Your task to perform on an android device: Empty the shopping cart on amazon.com. Add panasonic triple a to the cart on amazon.com Image 0: 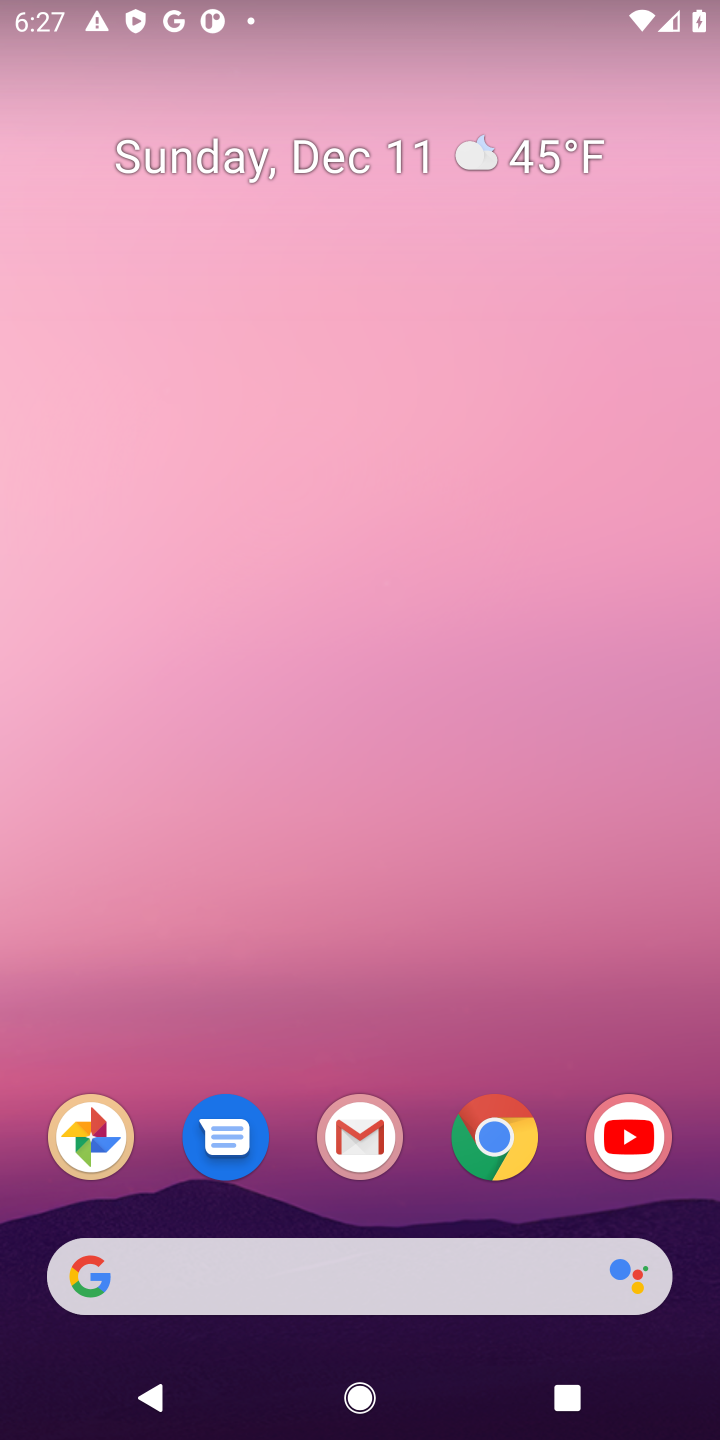
Step 0: click (507, 1138)
Your task to perform on an android device: Empty the shopping cart on amazon.com. Add panasonic triple a to the cart on amazon.com Image 1: 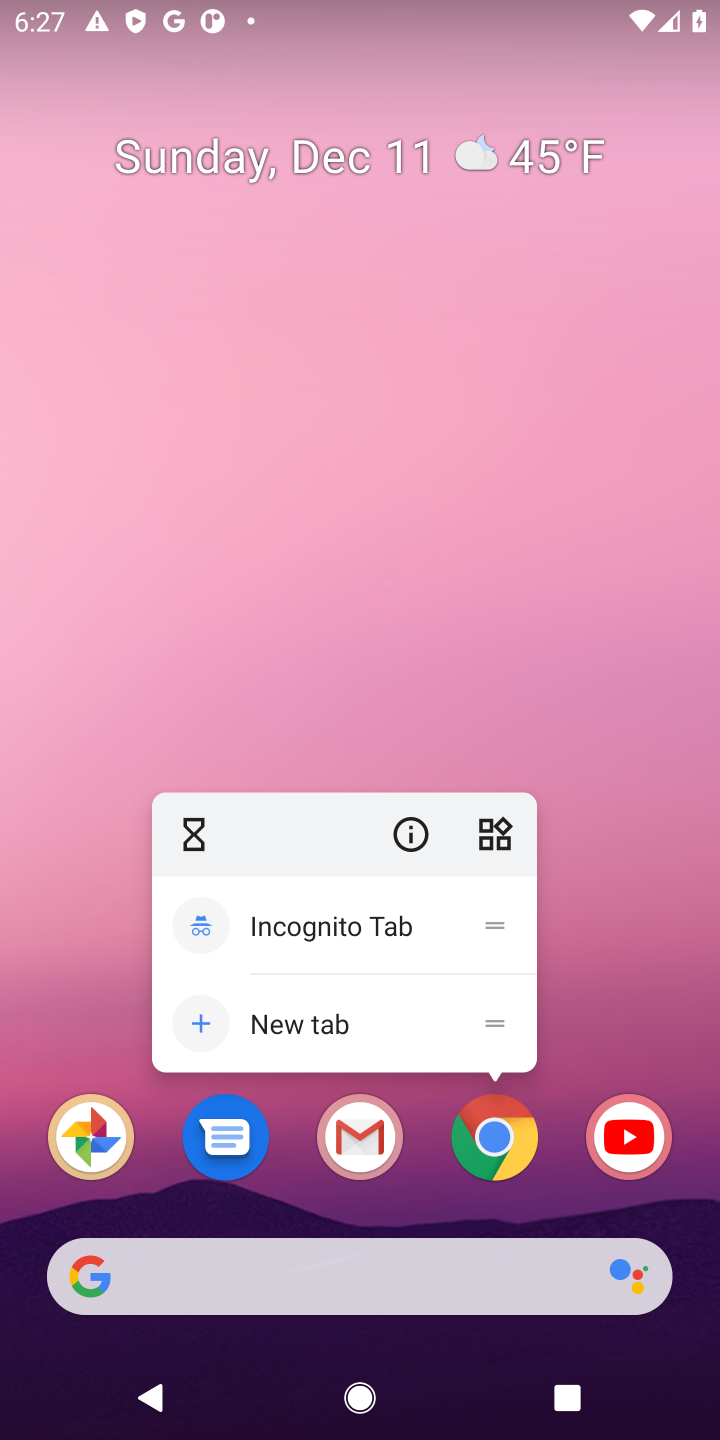
Step 1: click (507, 1138)
Your task to perform on an android device: Empty the shopping cart on amazon.com. Add panasonic triple a to the cart on amazon.com Image 2: 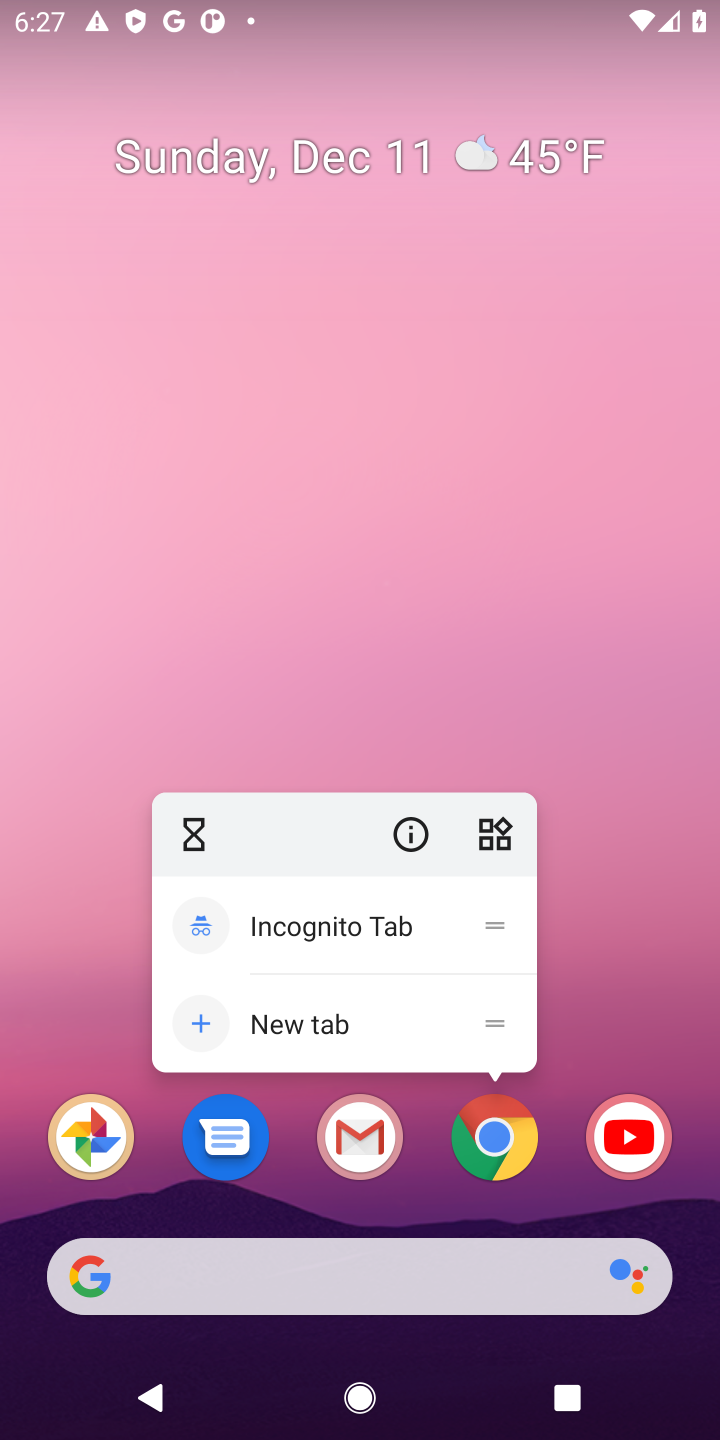
Step 2: click (489, 1140)
Your task to perform on an android device: Empty the shopping cart on amazon.com. Add panasonic triple a to the cart on amazon.com Image 3: 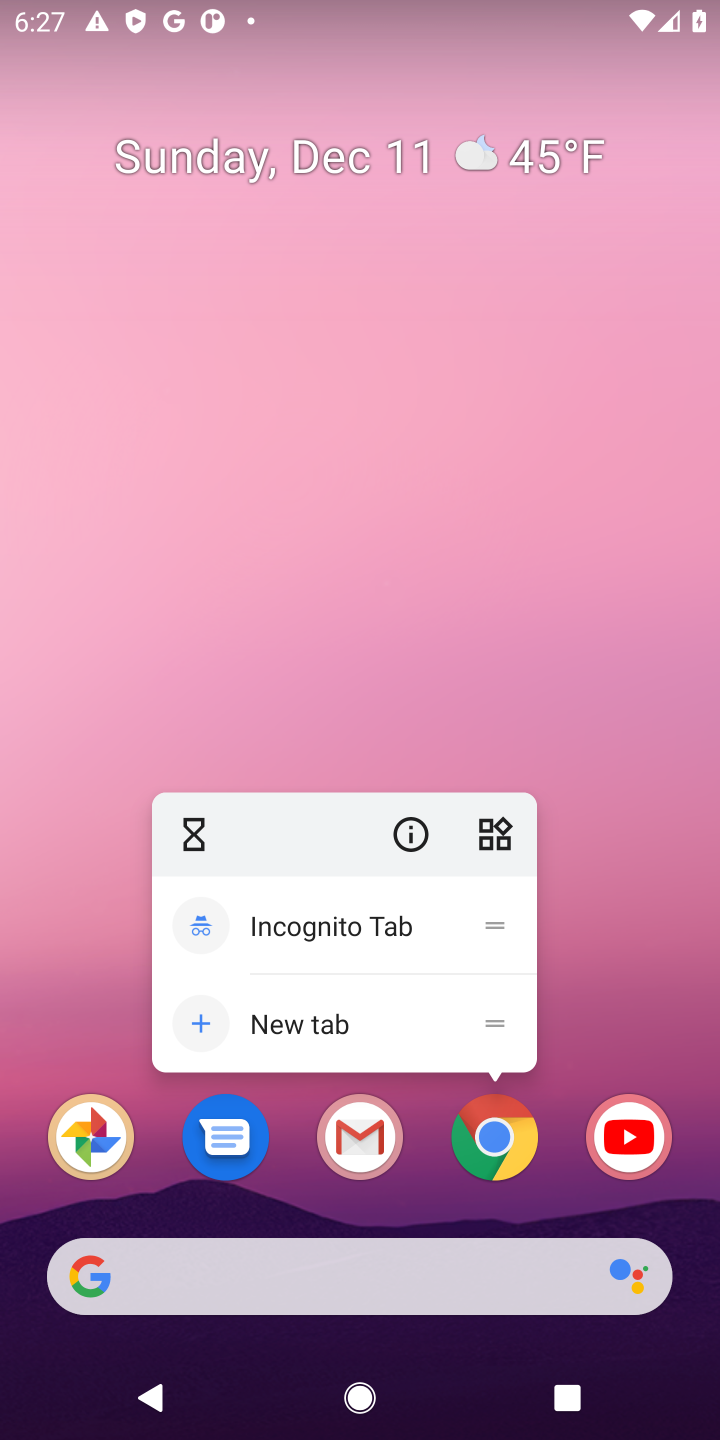
Step 3: click (489, 1140)
Your task to perform on an android device: Empty the shopping cart on amazon.com. Add panasonic triple a to the cart on amazon.com Image 4: 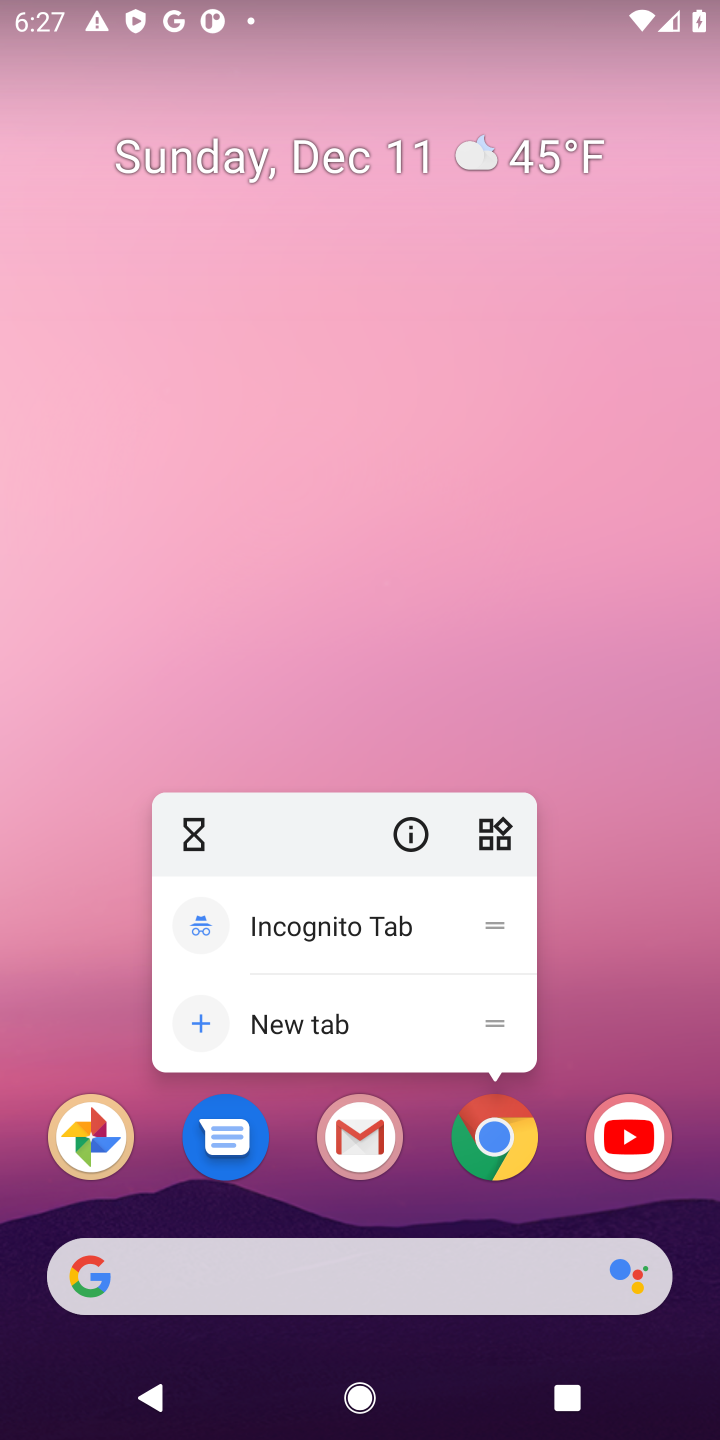
Step 4: click (489, 1140)
Your task to perform on an android device: Empty the shopping cart on amazon.com. Add panasonic triple a to the cart on amazon.com Image 5: 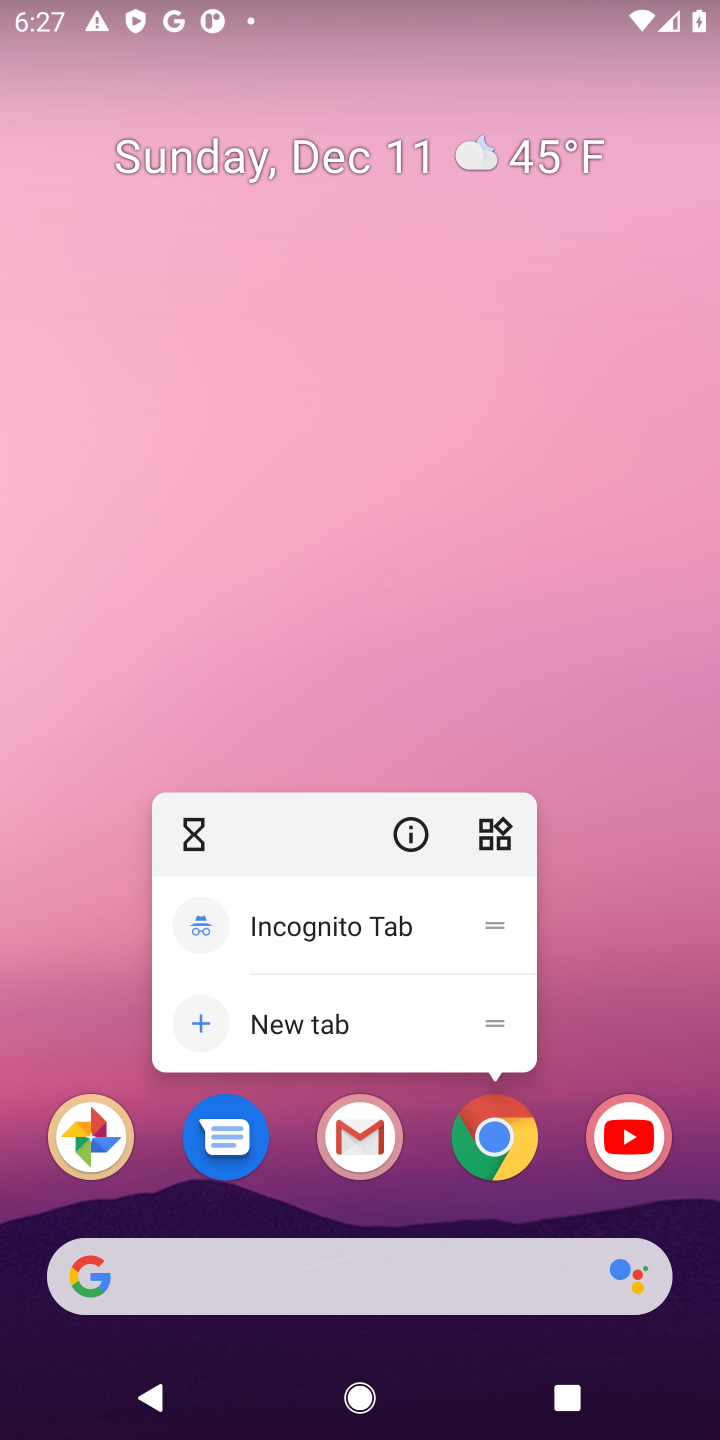
Step 5: click (489, 1140)
Your task to perform on an android device: Empty the shopping cart on amazon.com. Add panasonic triple a to the cart on amazon.com Image 6: 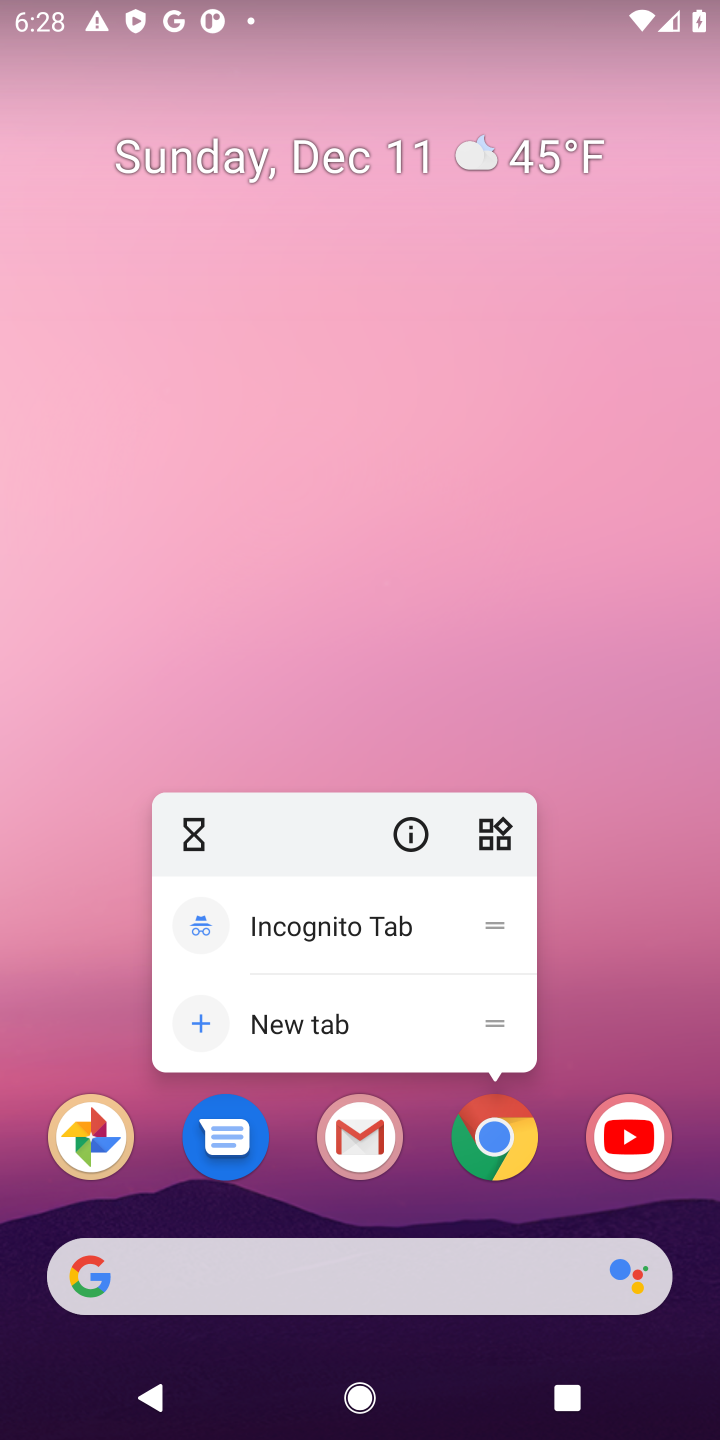
Step 6: click (489, 1155)
Your task to perform on an android device: Empty the shopping cart on amazon.com. Add panasonic triple a to the cart on amazon.com Image 7: 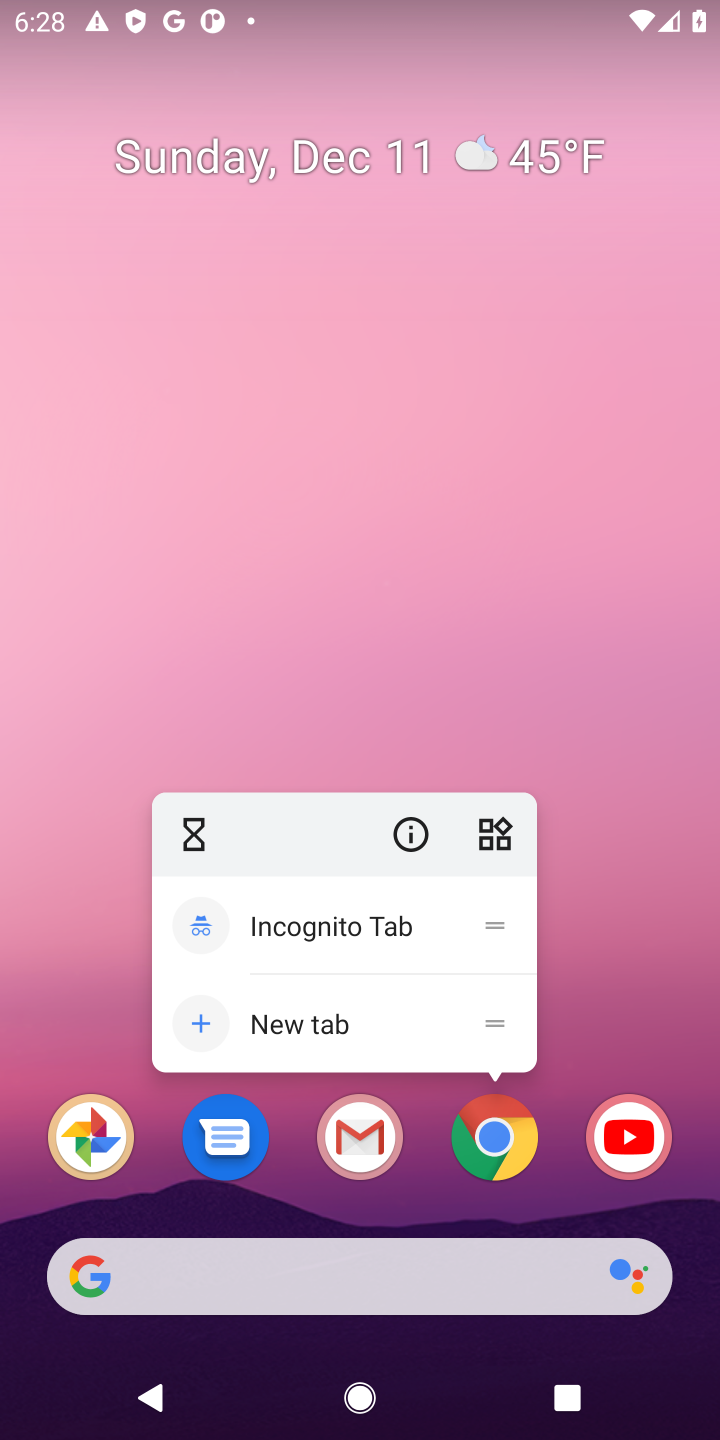
Step 7: click (489, 1155)
Your task to perform on an android device: Empty the shopping cart on amazon.com. Add panasonic triple a to the cart on amazon.com Image 8: 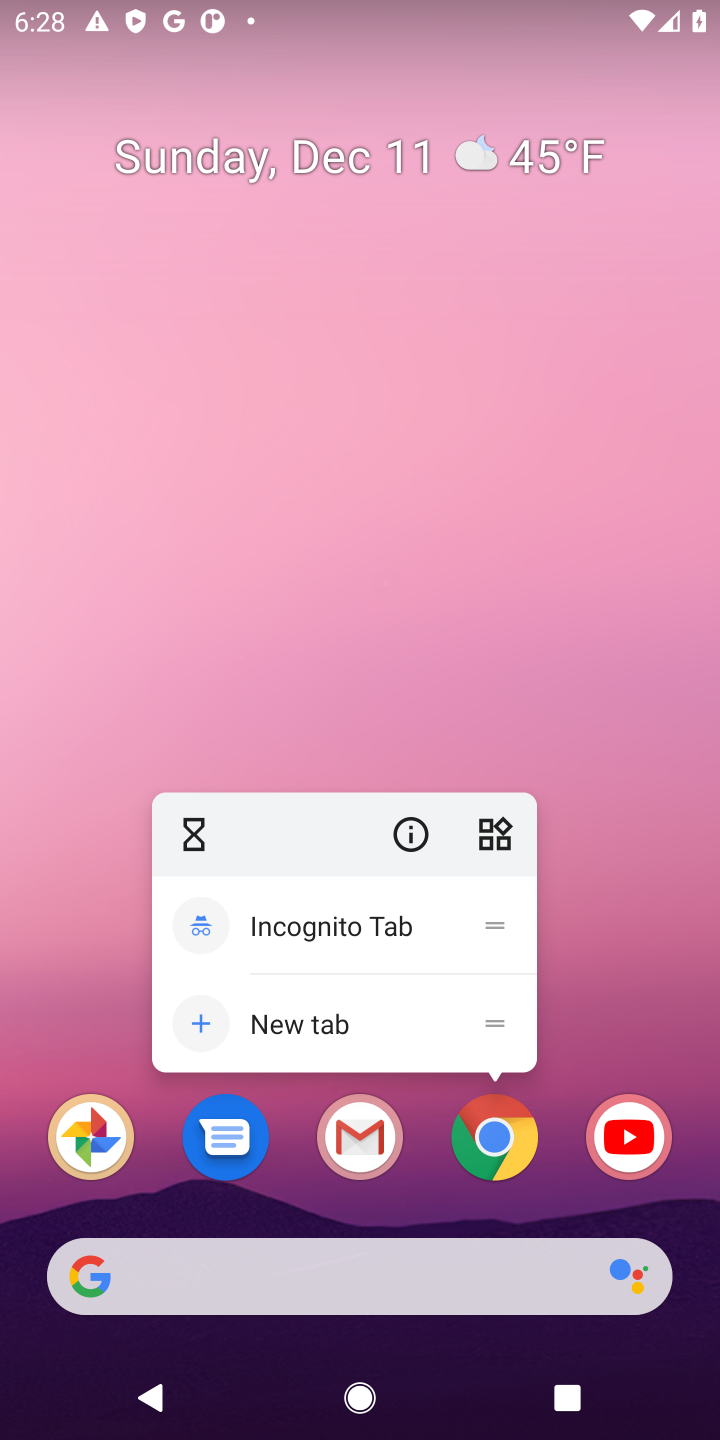
Step 8: click (489, 1155)
Your task to perform on an android device: Empty the shopping cart on amazon.com. Add panasonic triple a to the cart on amazon.com Image 9: 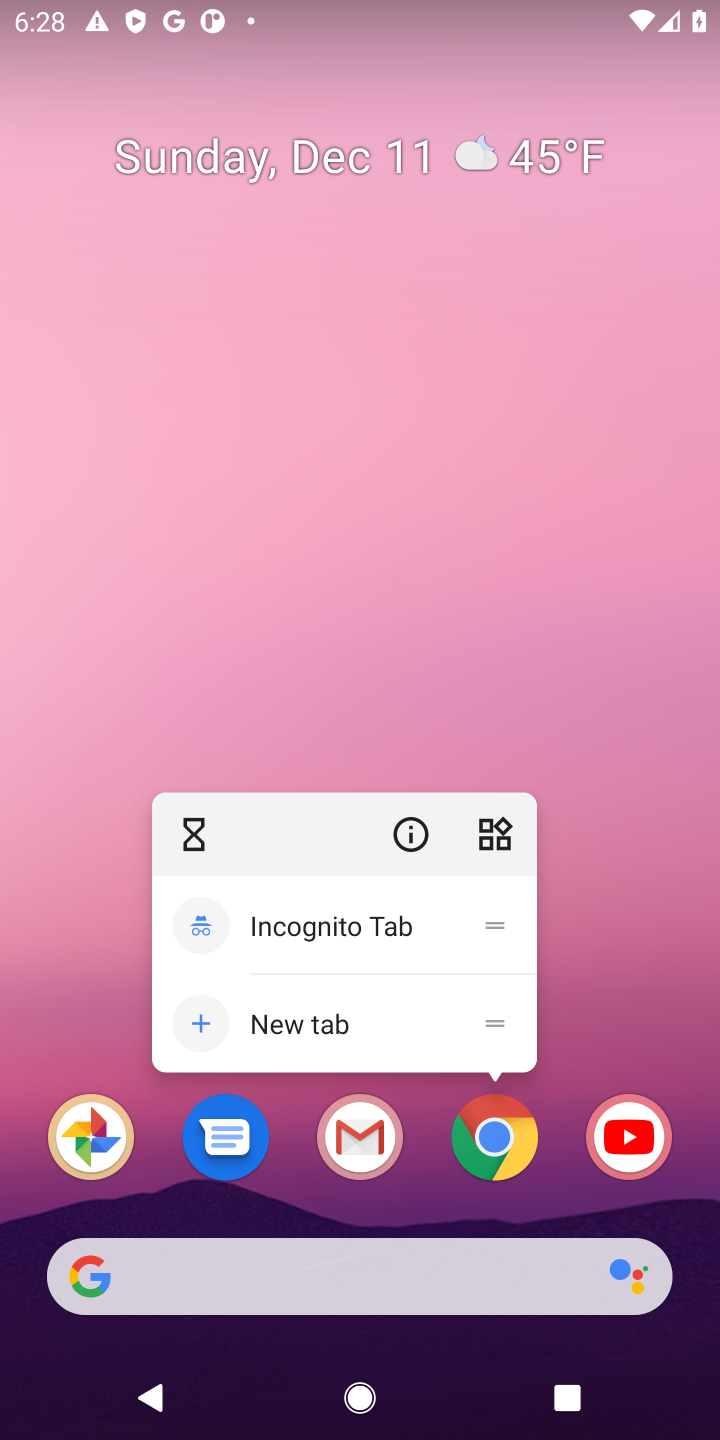
Step 9: click (500, 1134)
Your task to perform on an android device: Empty the shopping cart on amazon.com. Add panasonic triple a to the cart on amazon.com Image 10: 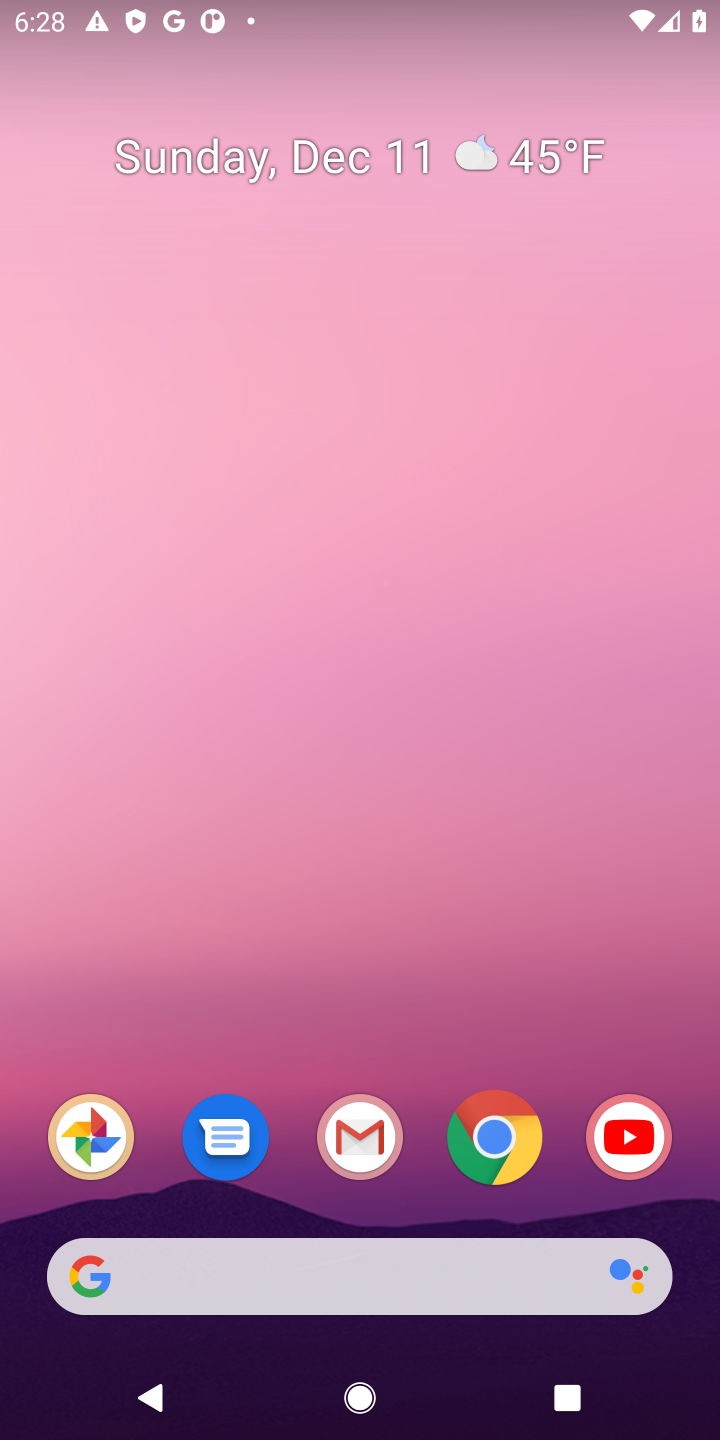
Step 10: click (500, 1134)
Your task to perform on an android device: Empty the shopping cart on amazon.com. Add panasonic triple a to the cart on amazon.com Image 11: 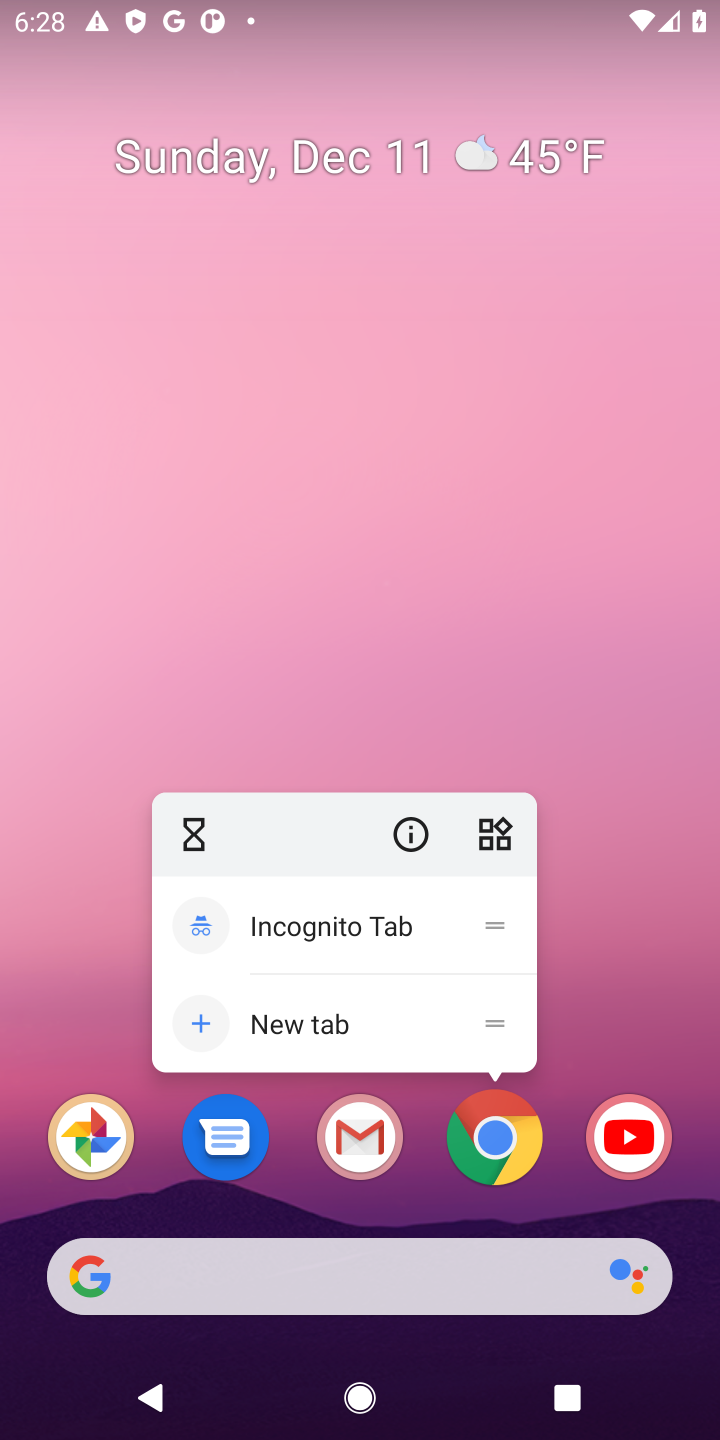
Step 11: click (500, 1134)
Your task to perform on an android device: Empty the shopping cart on amazon.com. Add panasonic triple a to the cart on amazon.com Image 12: 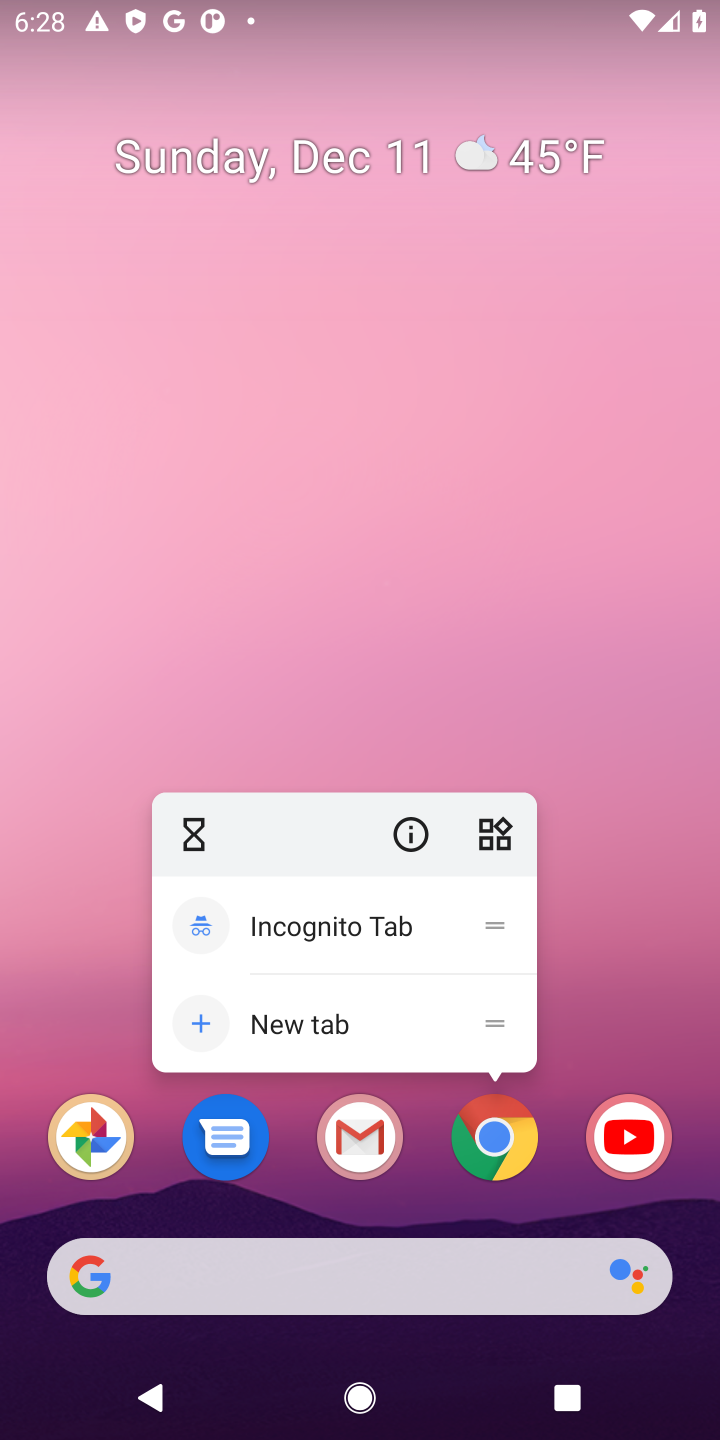
Step 12: click (500, 1134)
Your task to perform on an android device: Empty the shopping cart on amazon.com. Add panasonic triple a to the cart on amazon.com Image 13: 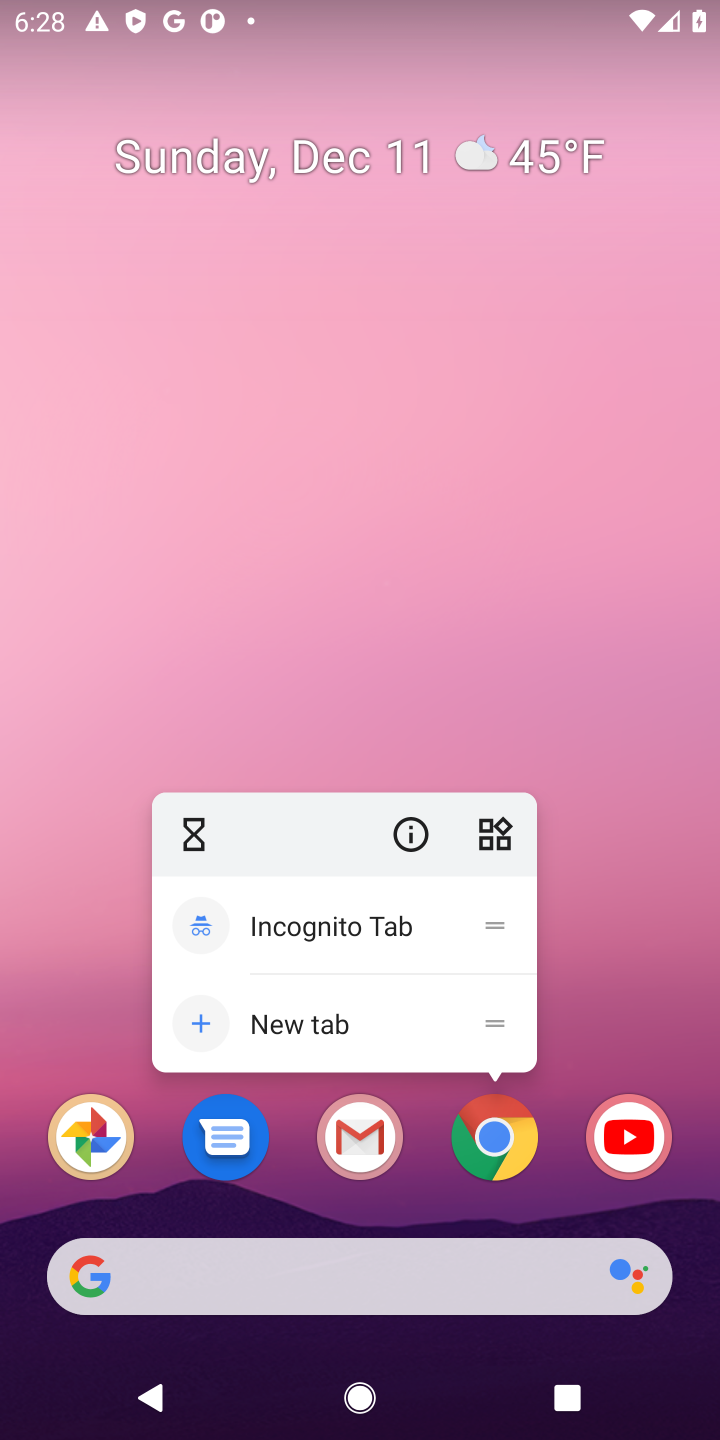
Step 13: click (500, 1134)
Your task to perform on an android device: Empty the shopping cart on amazon.com. Add panasonic triple a to the cart on amazon.com Image 14: 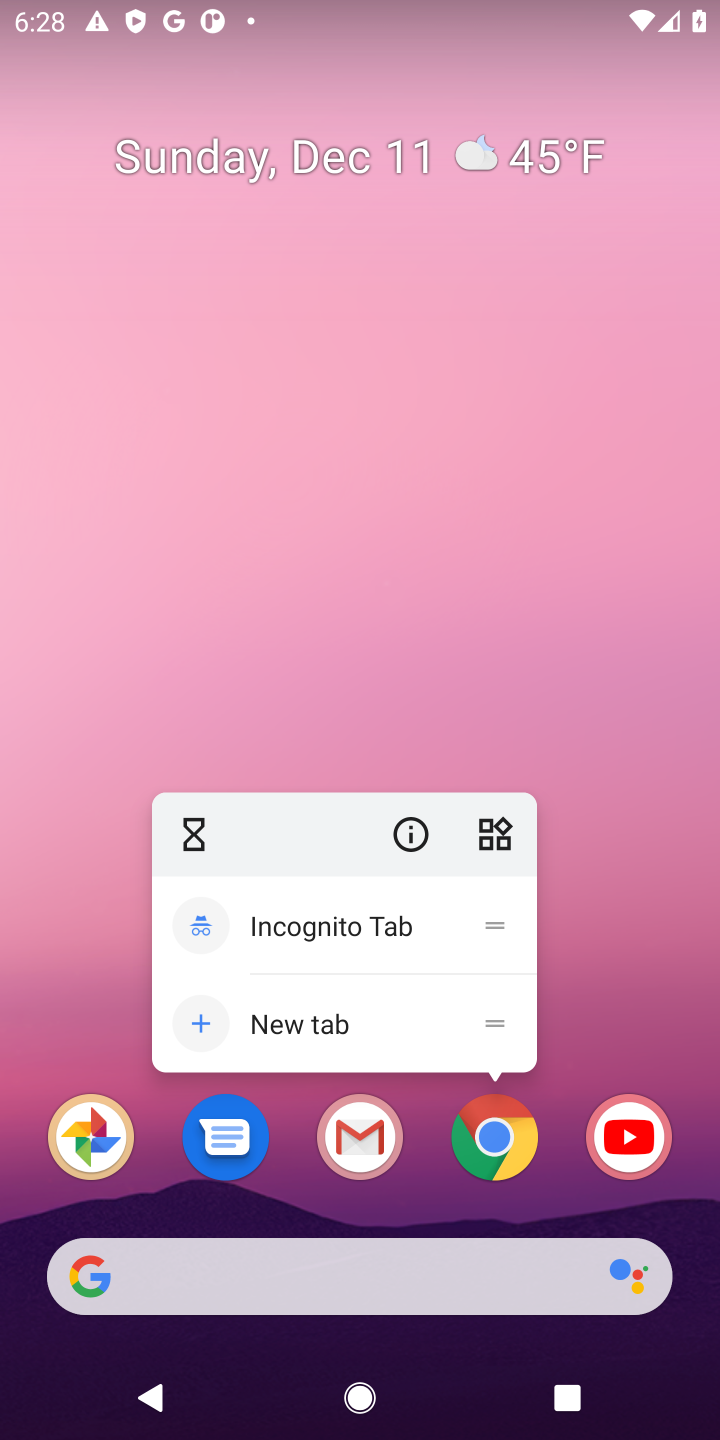
Step 14: click (492, 1145)
Your task to perform on an android device: Empty the shopping cart on amazon.com. Add panasonic triple a to the cart on amazon.com Image 15: 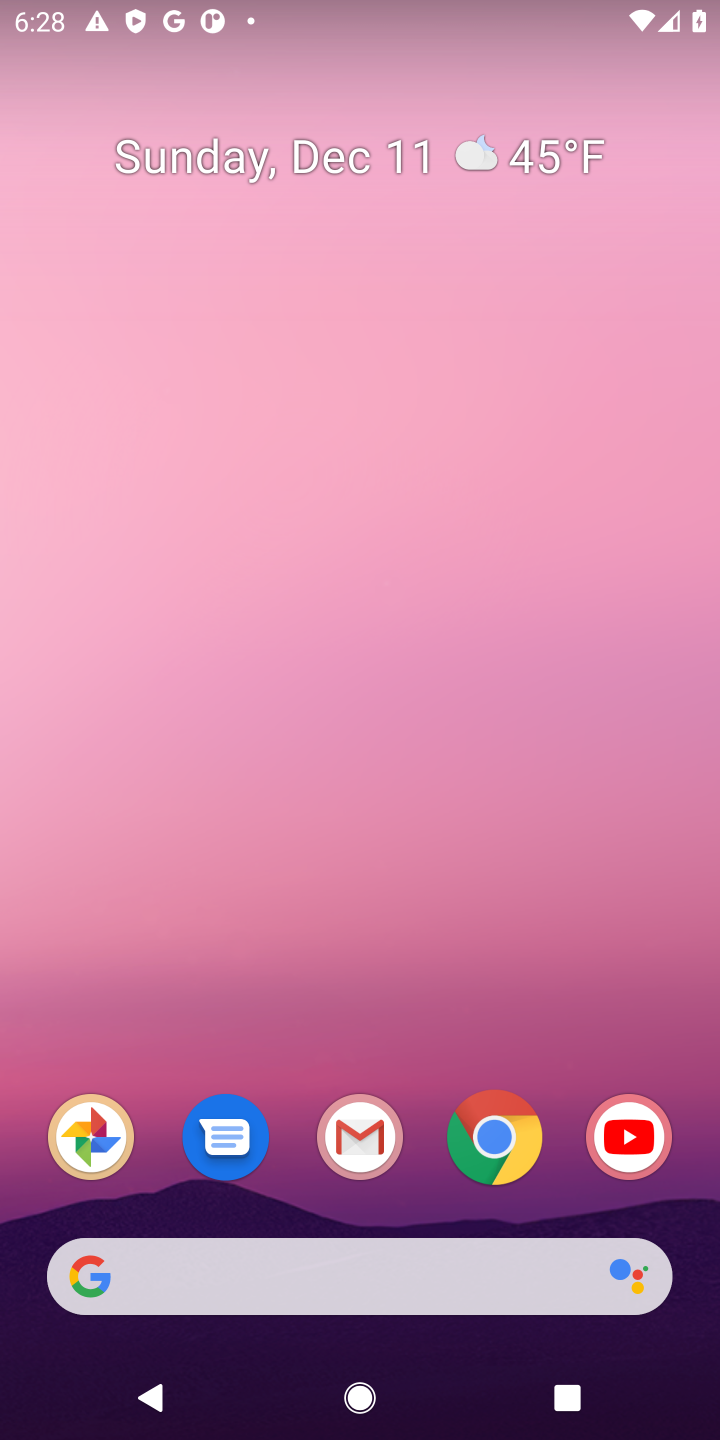
Step 15: click (492, 1145)
Your task to perform on an android device: Empty the shopping cart on amazon.com. Add panasonic triple a to the cart on amazon.com Image 16: 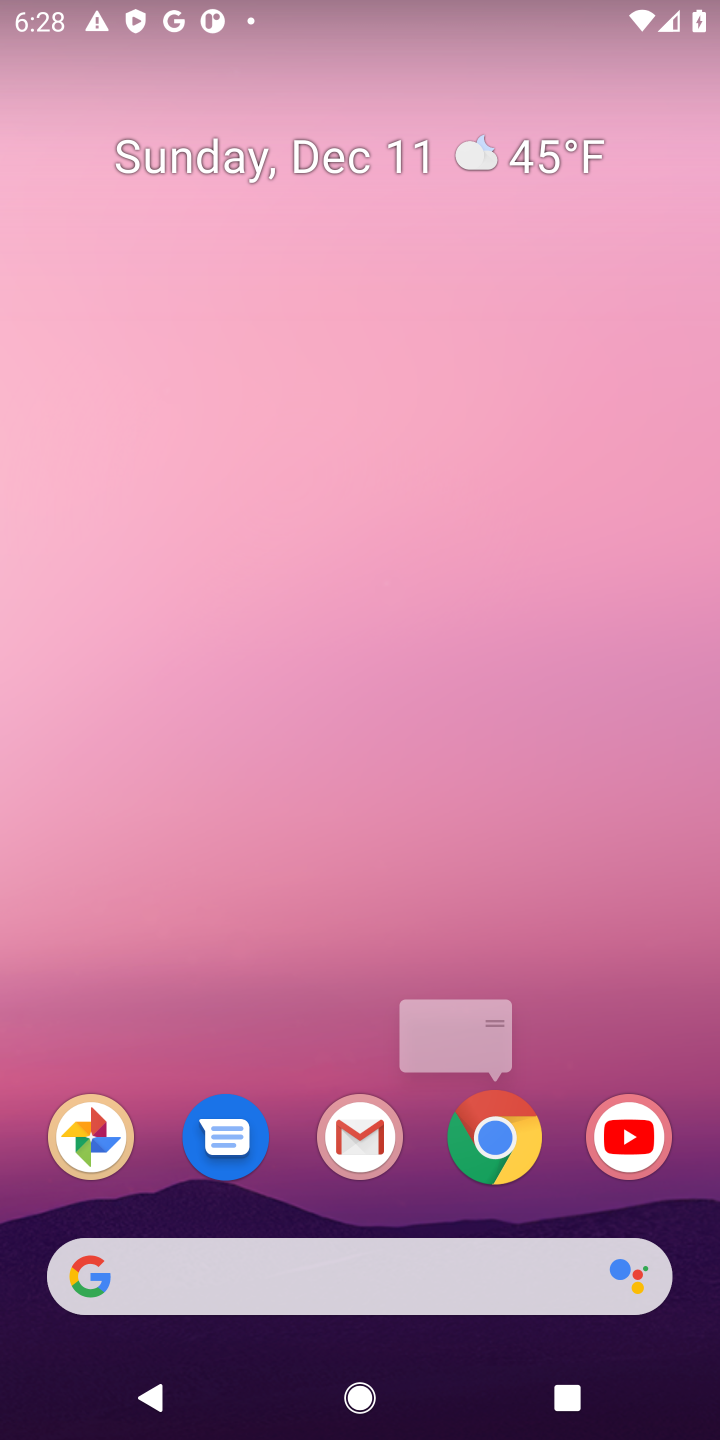
Step 16: click (492, 1145)
Your task to perform on an android device: Empty the shopping cart on amazon.com. Add panasonic triple a to the cart on amazon.com Image 17: 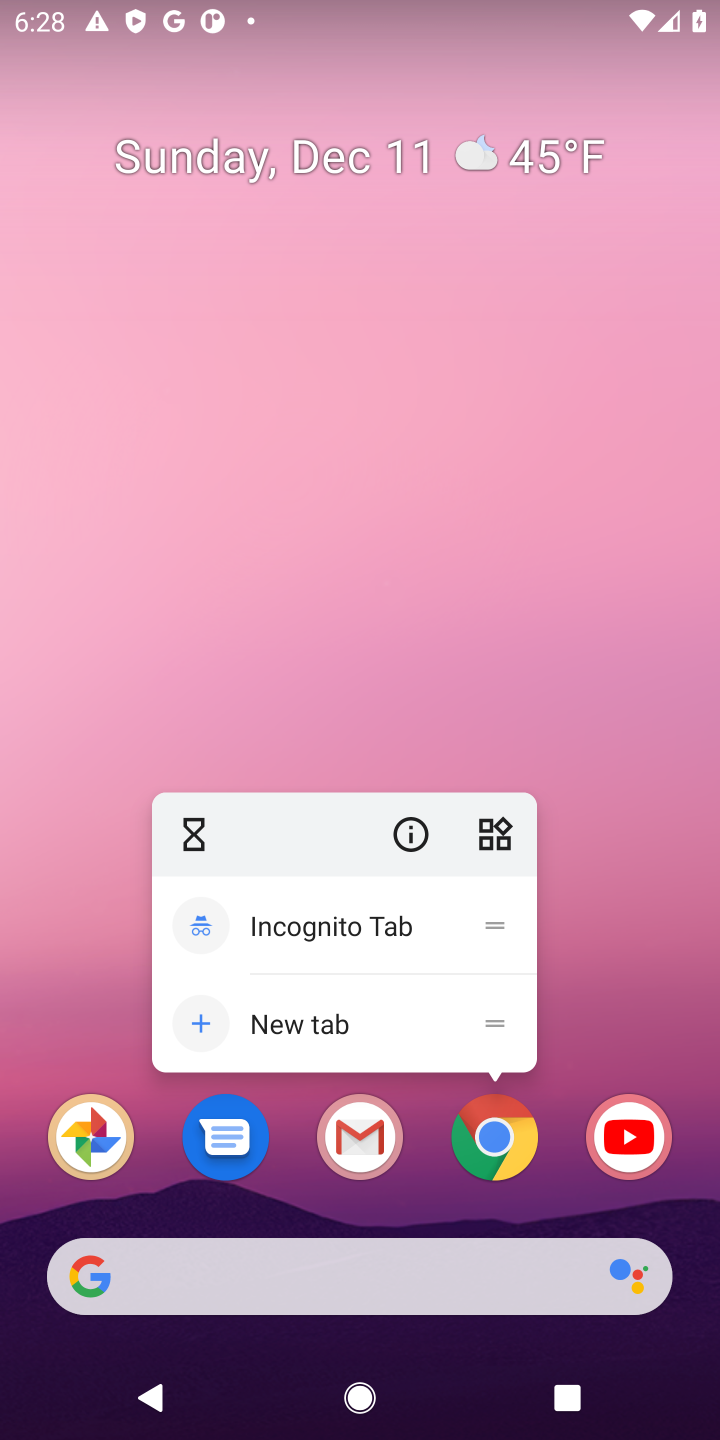
Step 17: click (492, 1145)
Your task to perform on an android device: Empty the shopping cart on amazon.com. Add panasonic triple a to the cart on amazon.com Image 18: 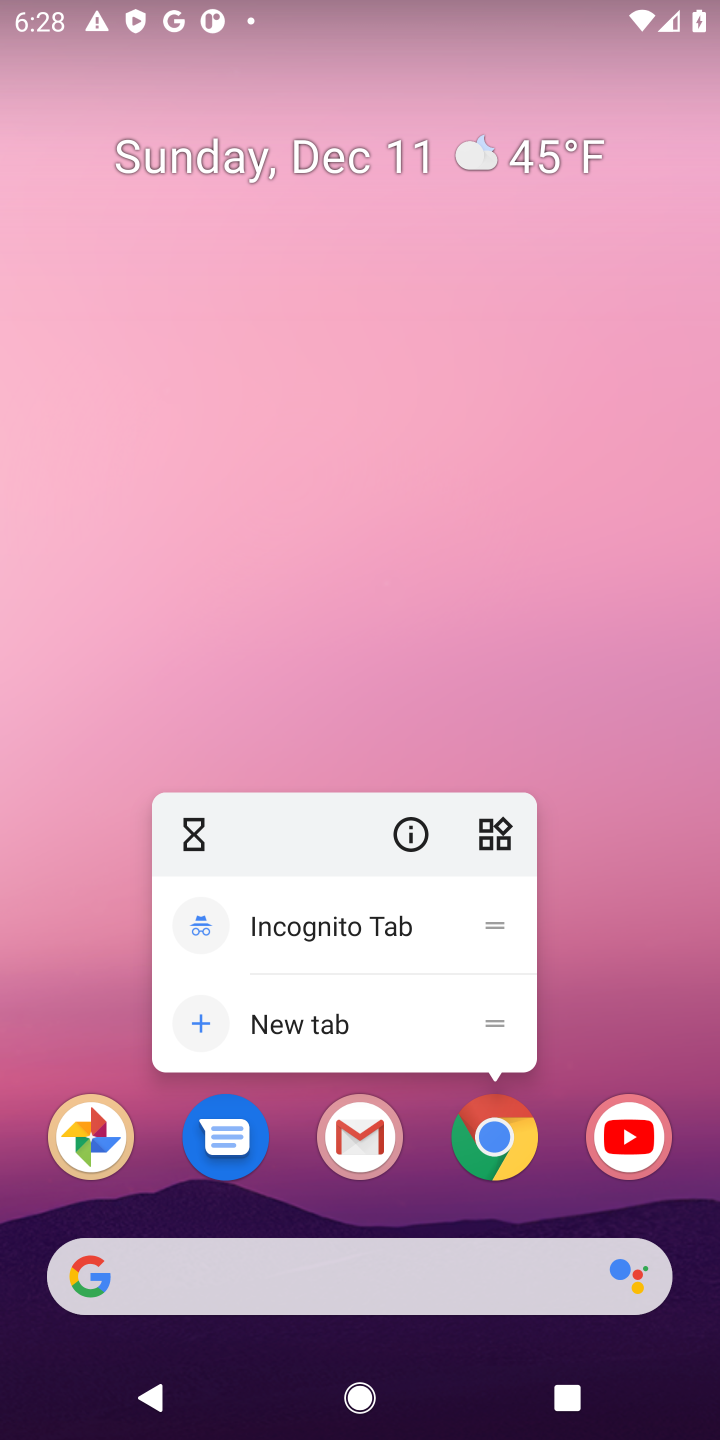
Step 18: click (501, 1163)
Your task to perform on an android device: Empty the shopping cart on amazon.com. Add panasonic triple a to the cart on amazon.com Image 19: 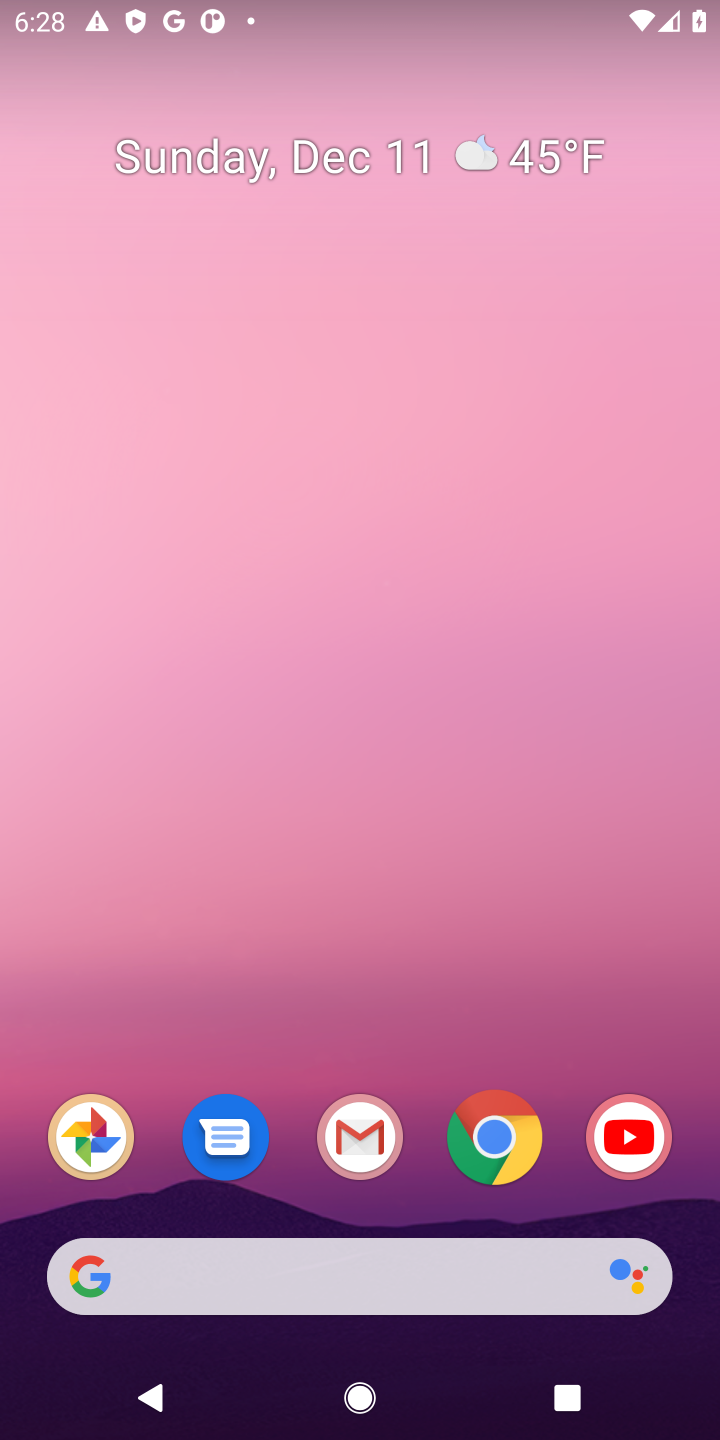
Step 19: click (501, 1163)
Your task to perform on an android device: Empty the shopping cart on amazon.com. Add panasonic triple a to the cart on amazon.com Image 20: 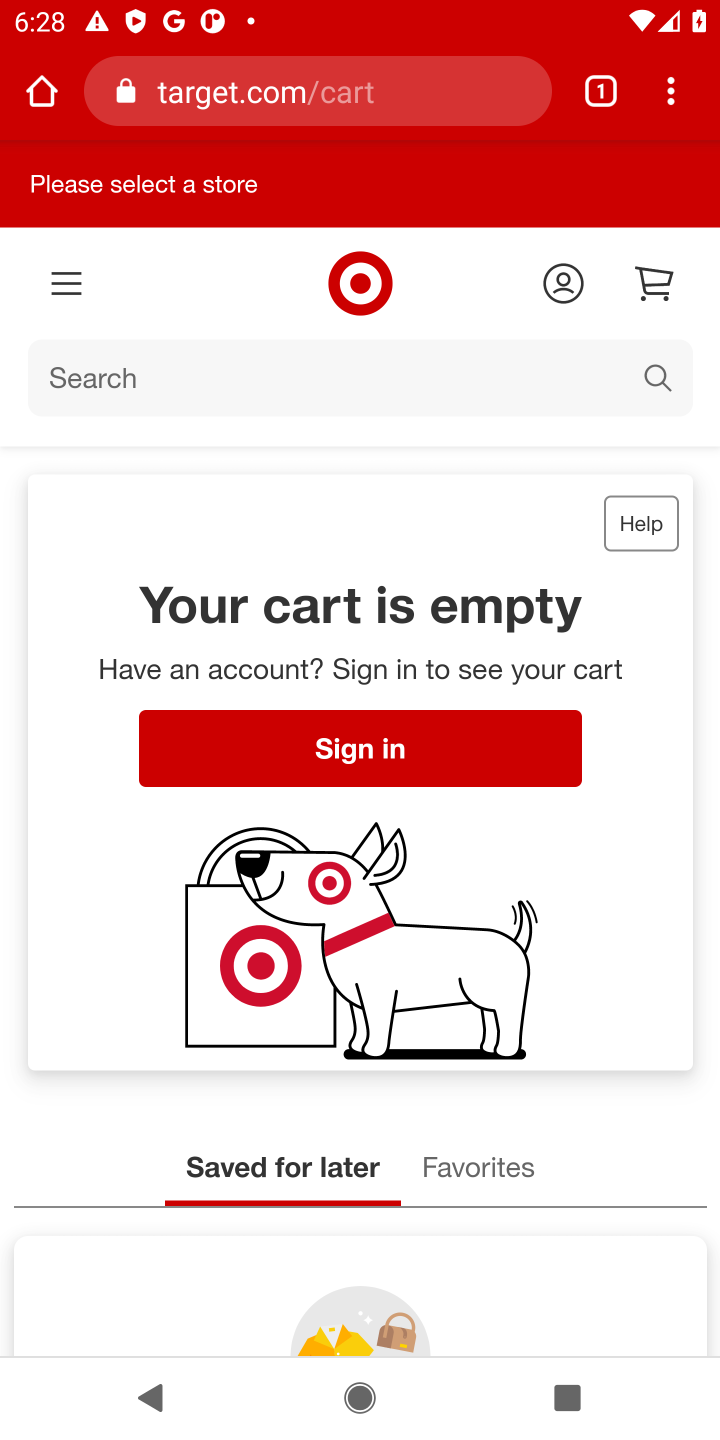
Step 20: click (416, 68)
Your task to perform on an android device: Empty the shopping cart on amazon.com. Add panasonic triple a to the cart on amazon.com Image 21: 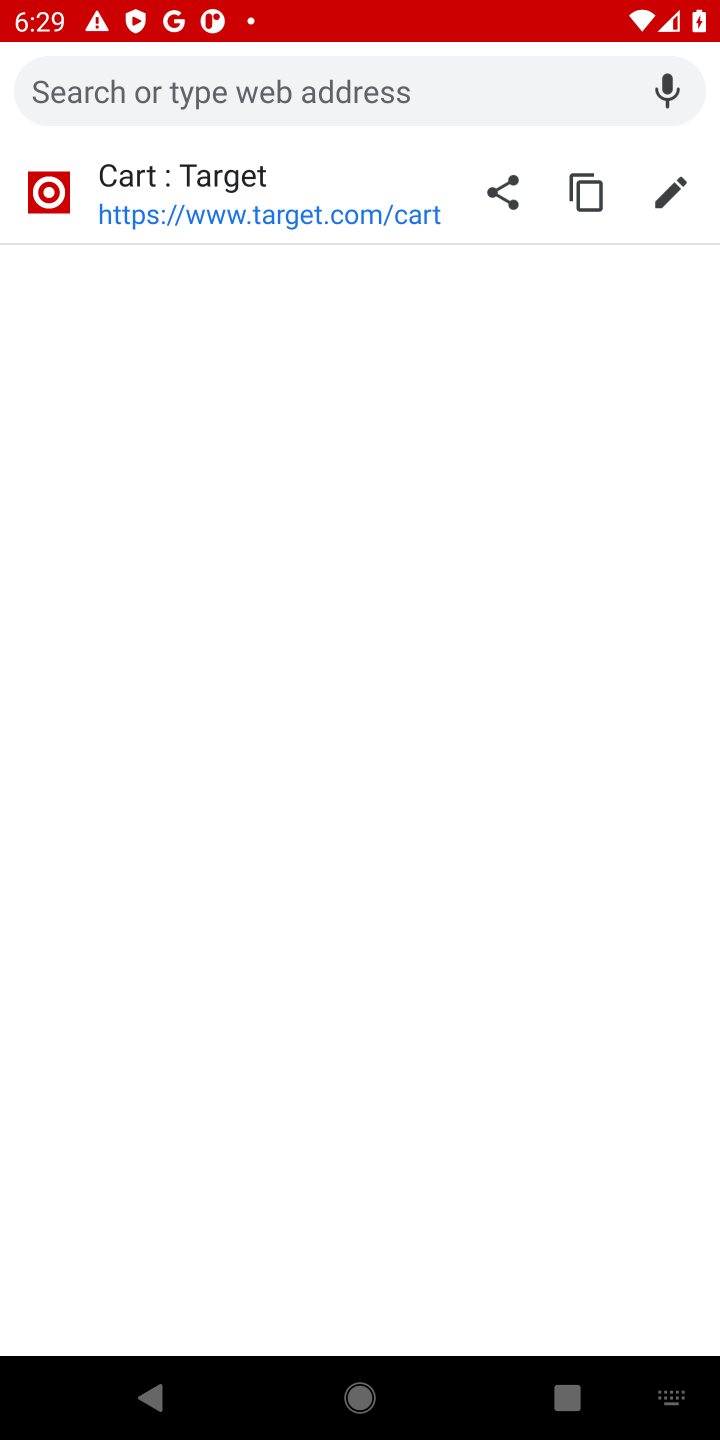
Step 21: type "amazon"
Your task to perform on an android device: Empty the shopping cart on amazon.com. Add panasonic triple a to the cart on amazon.com Image 22: 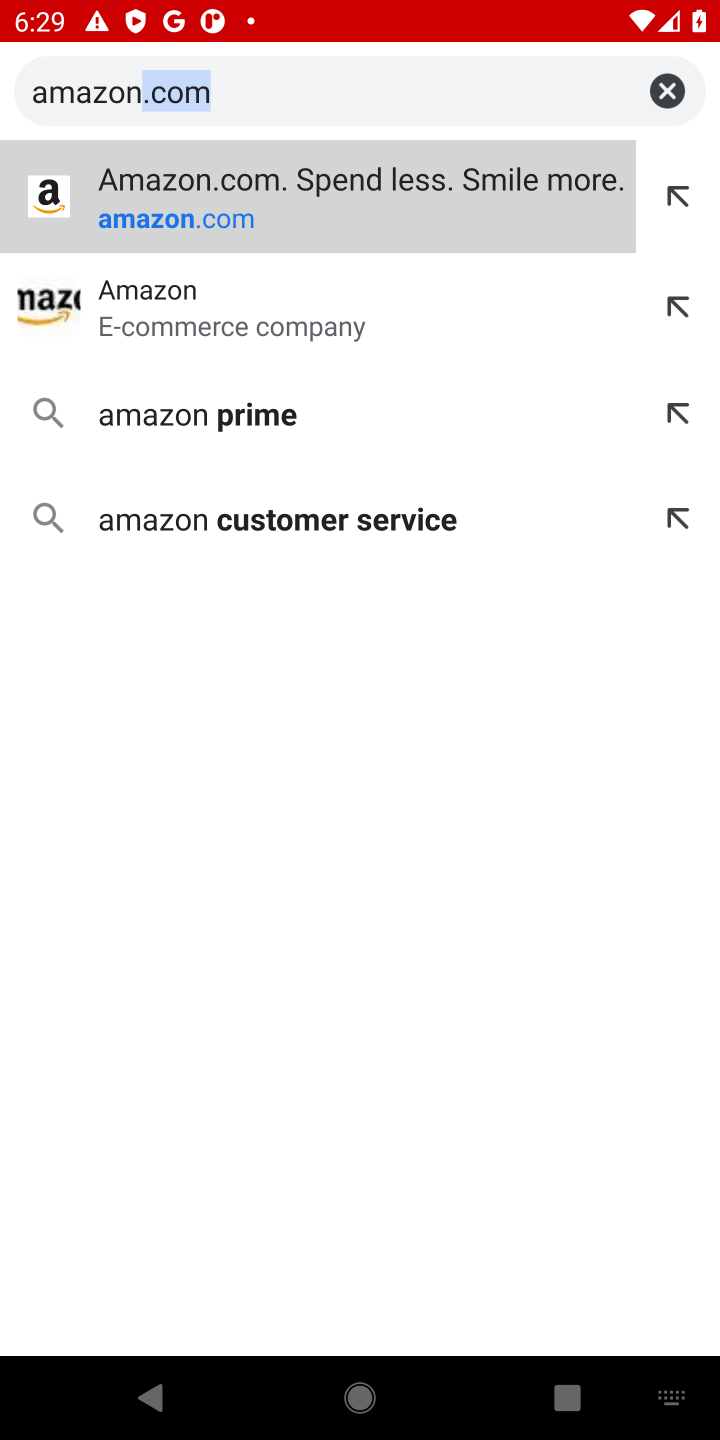
Step 22: type ""
Your task to perform on an android device: Empty the shopping cart on amazon.com. Add panasonic triple a to the cart on amazon.com Image 23: 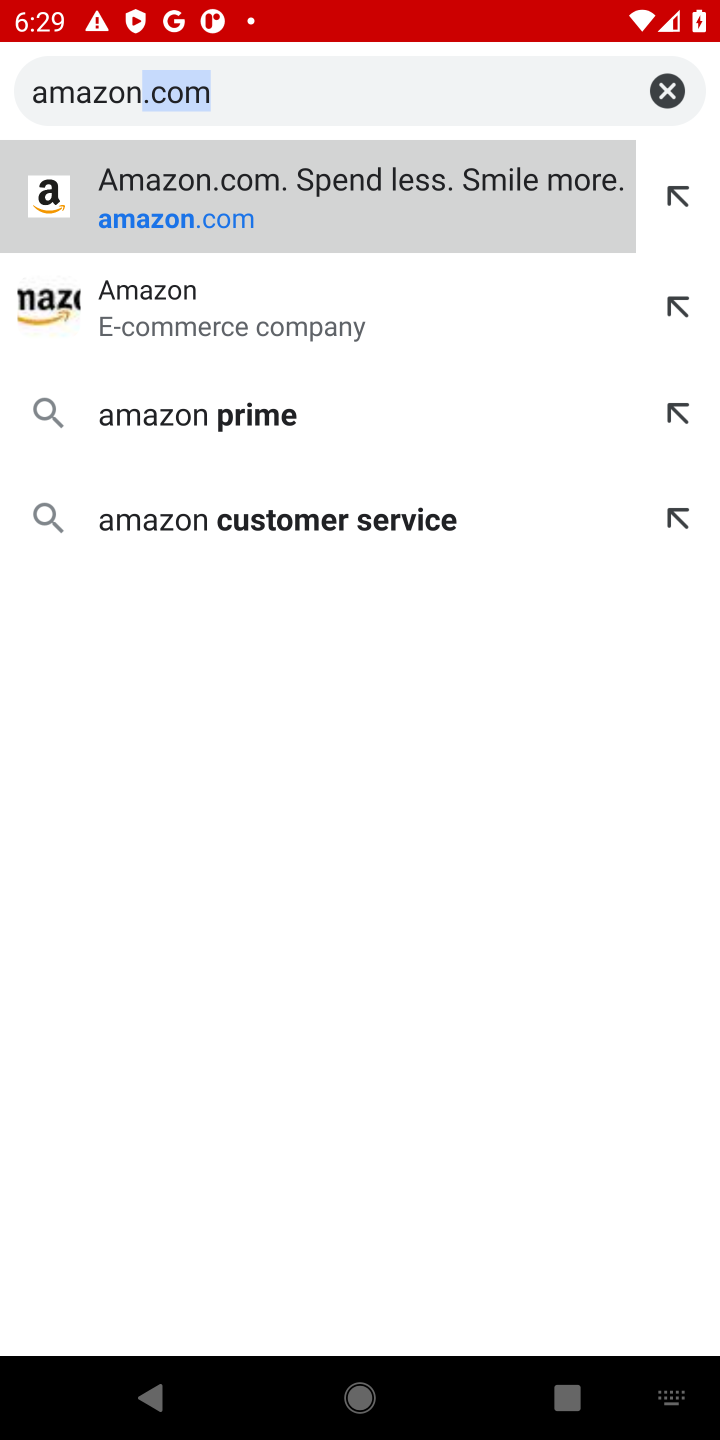
Step 23: click (327, 230)
Your task to perform on an android device: Empty the shopping cart on amazon.com. Add panasonic triple a to the cart on amazon.com Image 24: 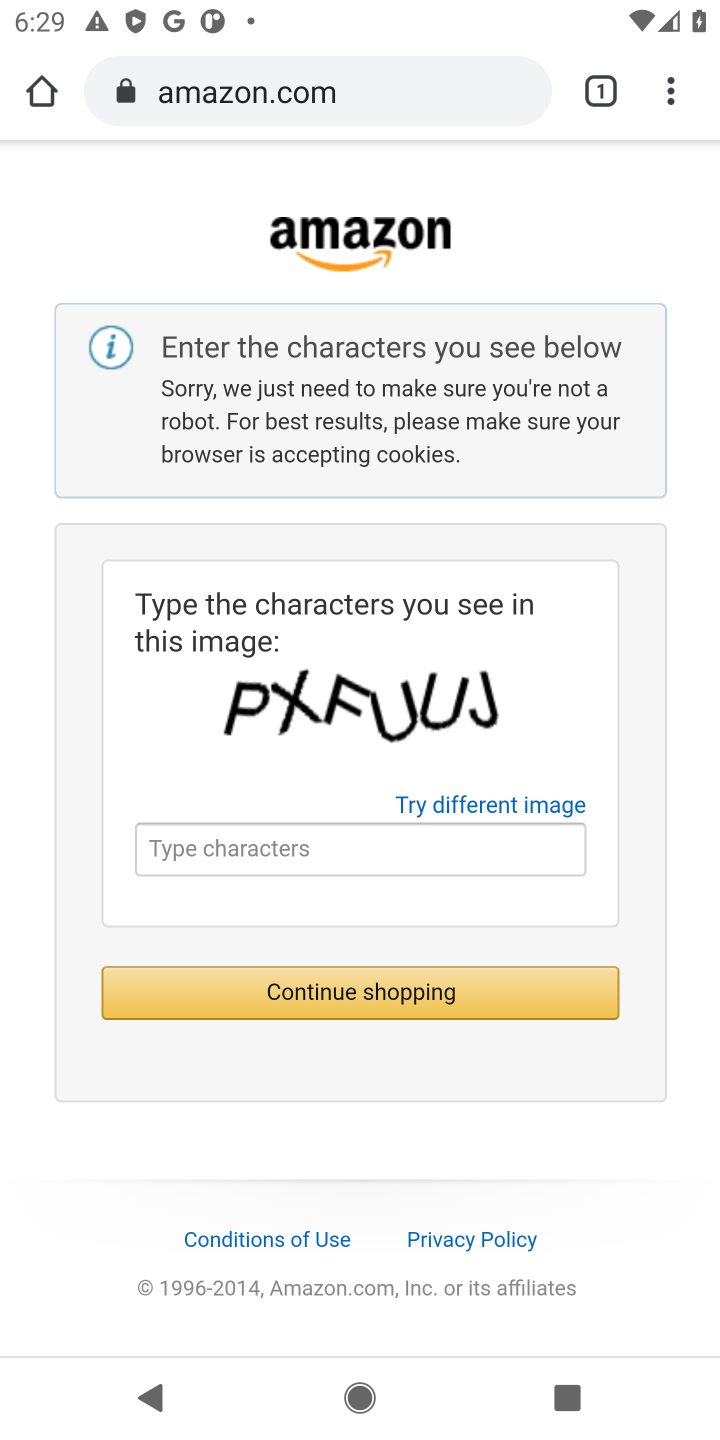
Step 24: click (212, 843)
Your task to perform on an android device: Empty the shopping cart on amazon.com. Add panasonic triple a to the cart on amazon.com Image 25: 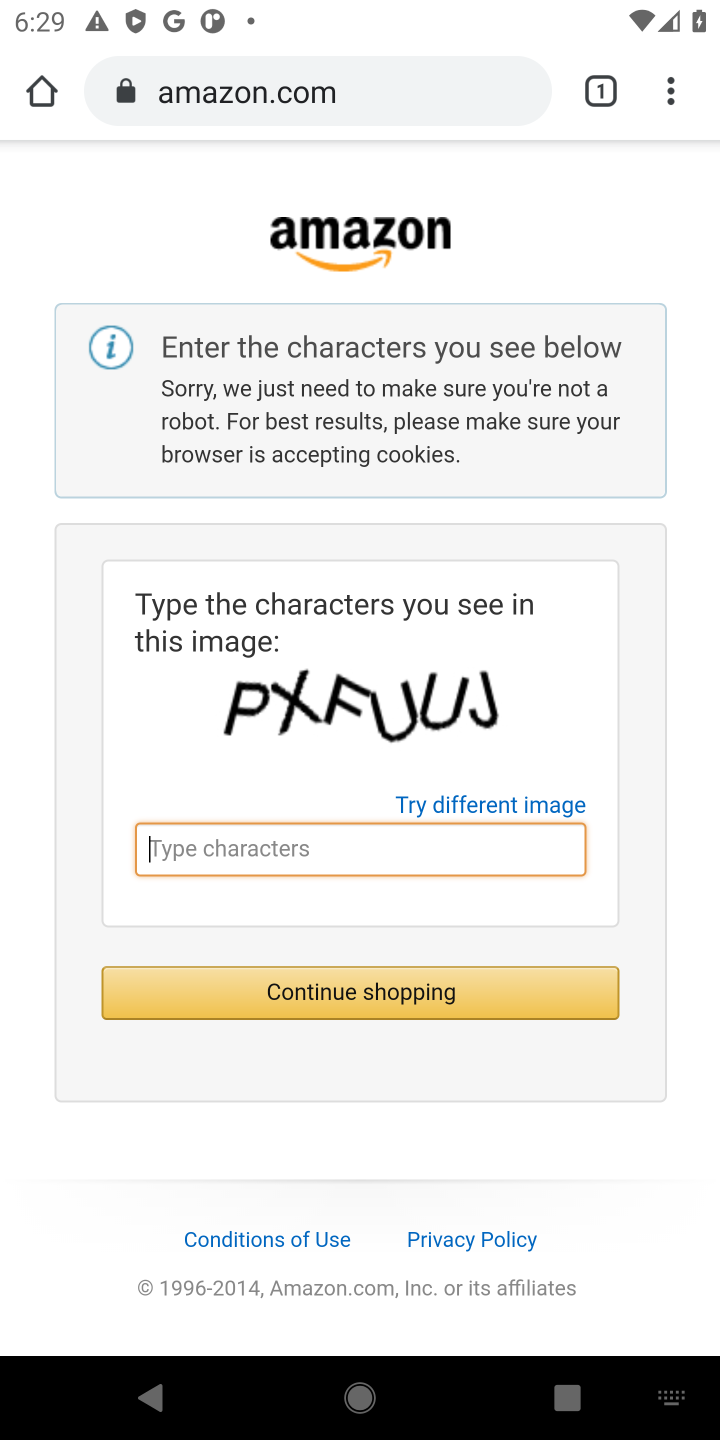
Step 25: type "PXFUUJ"
Your task to perform on an android device: Empty the shopping cart on amazon.com. Add panasonic triple a to the cart on amazon.com Image 26: 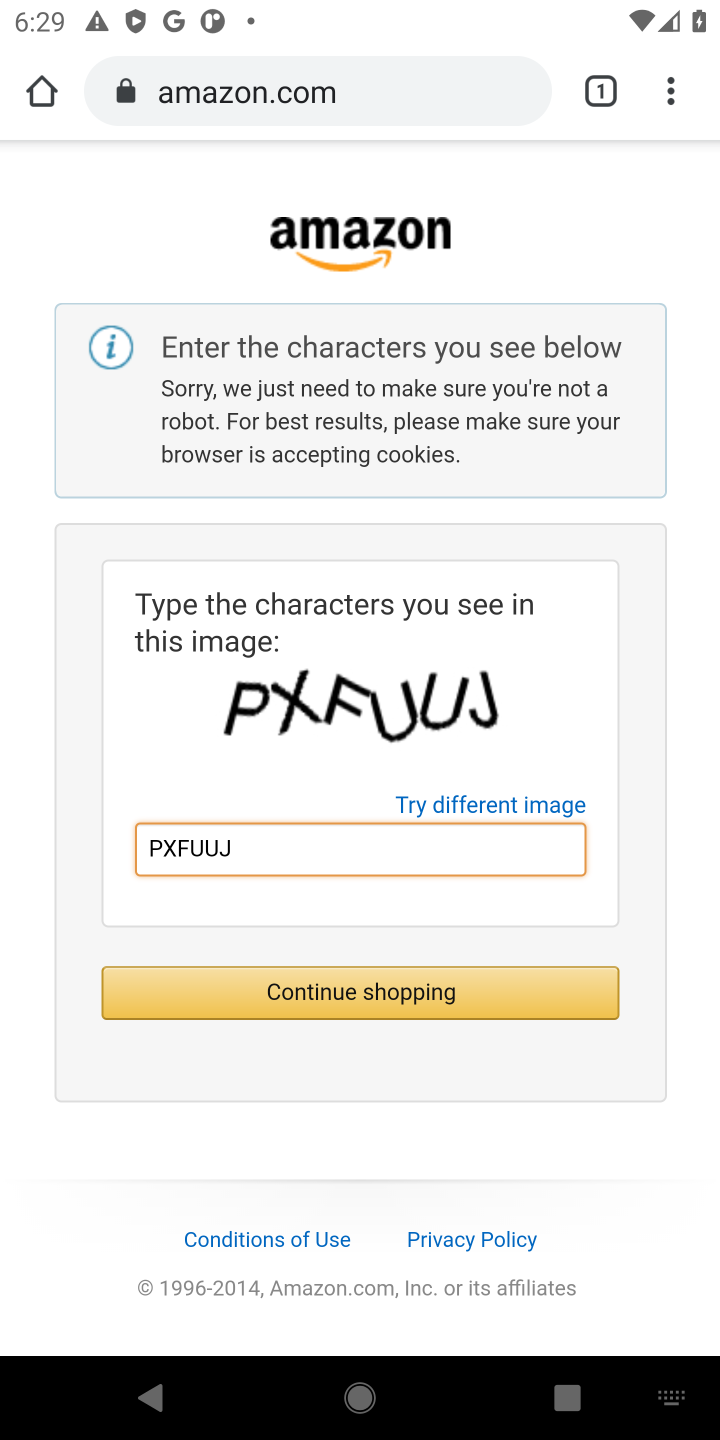
Step 26: click (598, 985)
Your task to perform on an android device: Empty the shopping cart on amazon.com. Add panasonic triple a to the cart on amazon.com Image 27: 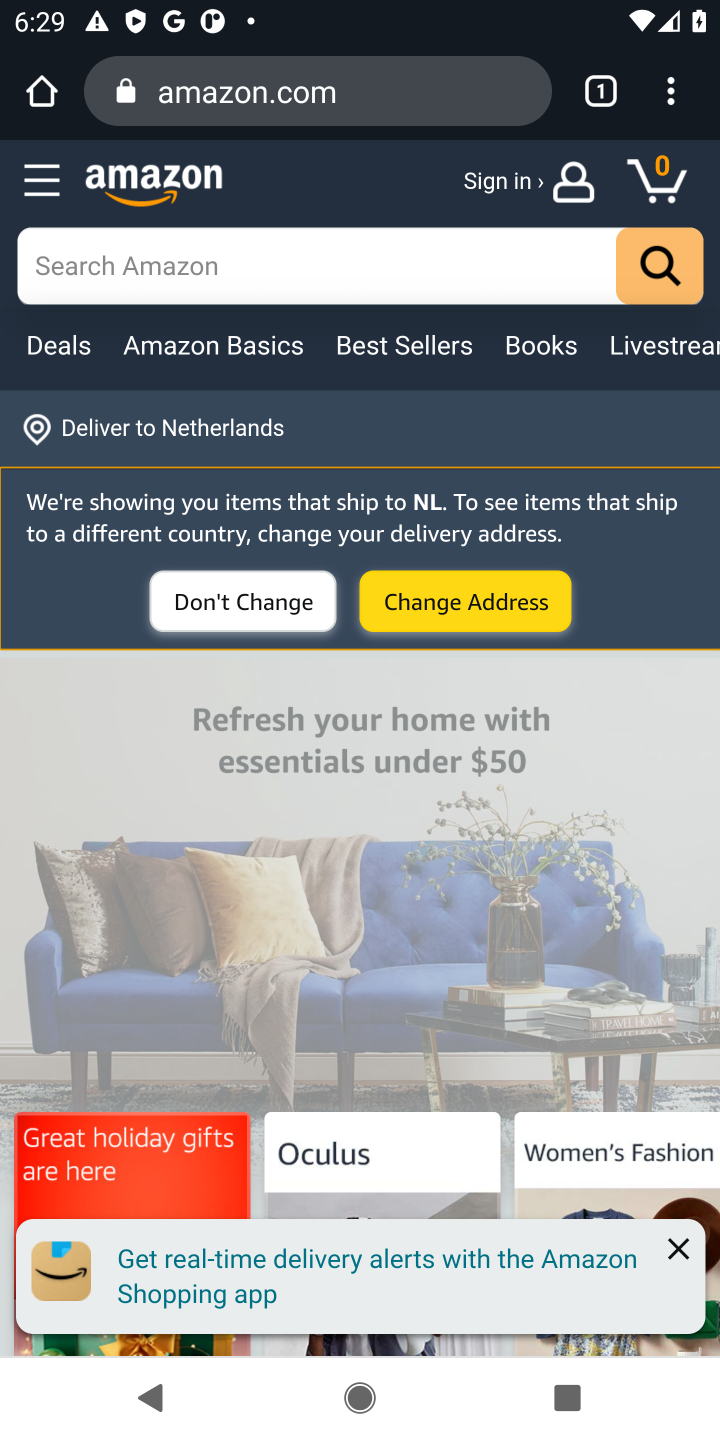
Step 27: click (661, 177)
Your task to perform on an android device: Empty the shopping cart on amazon.com. Add panasonic triple a to the cart on amazon.com Image 28: 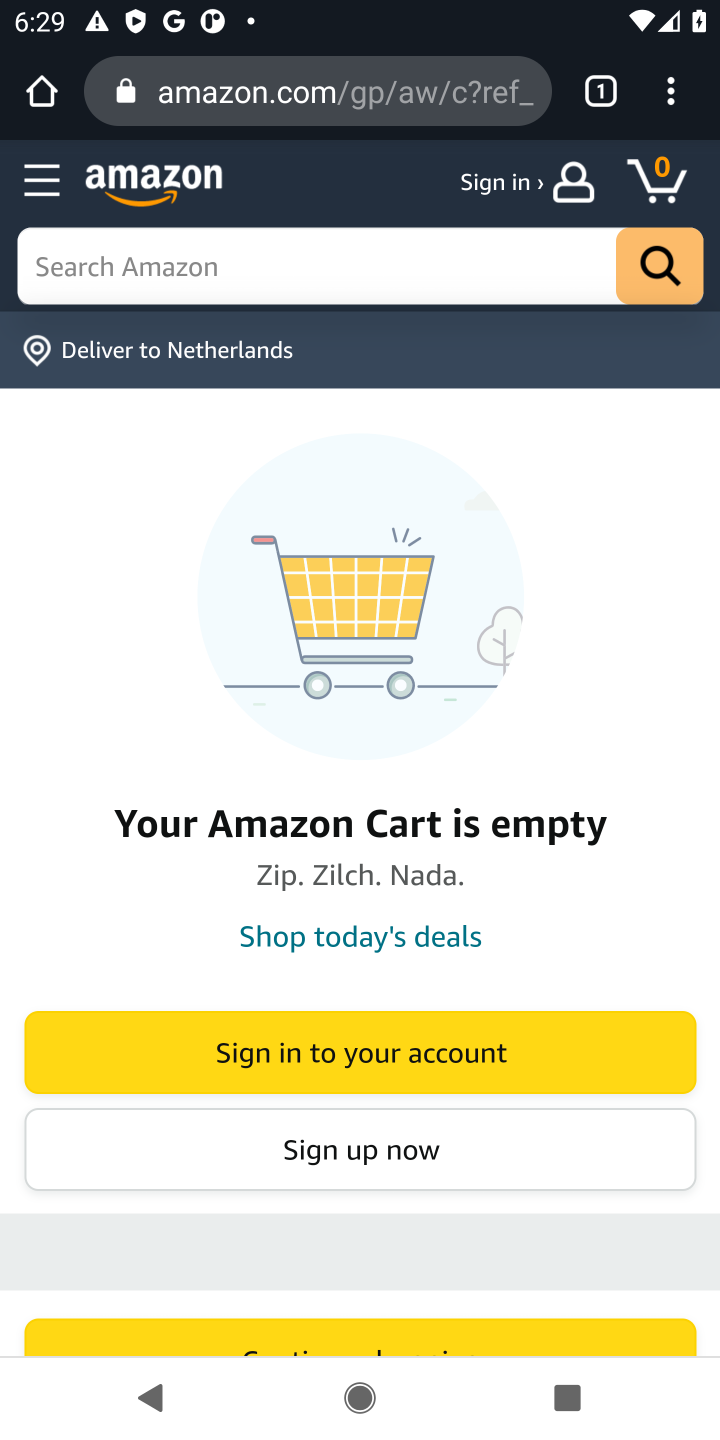
Step 28: click (314, 289)
Your task to perform on an android device: Empty the shopping cart on amazon.com. Add panasonic triple a to the cart on amazon.com Image 29: 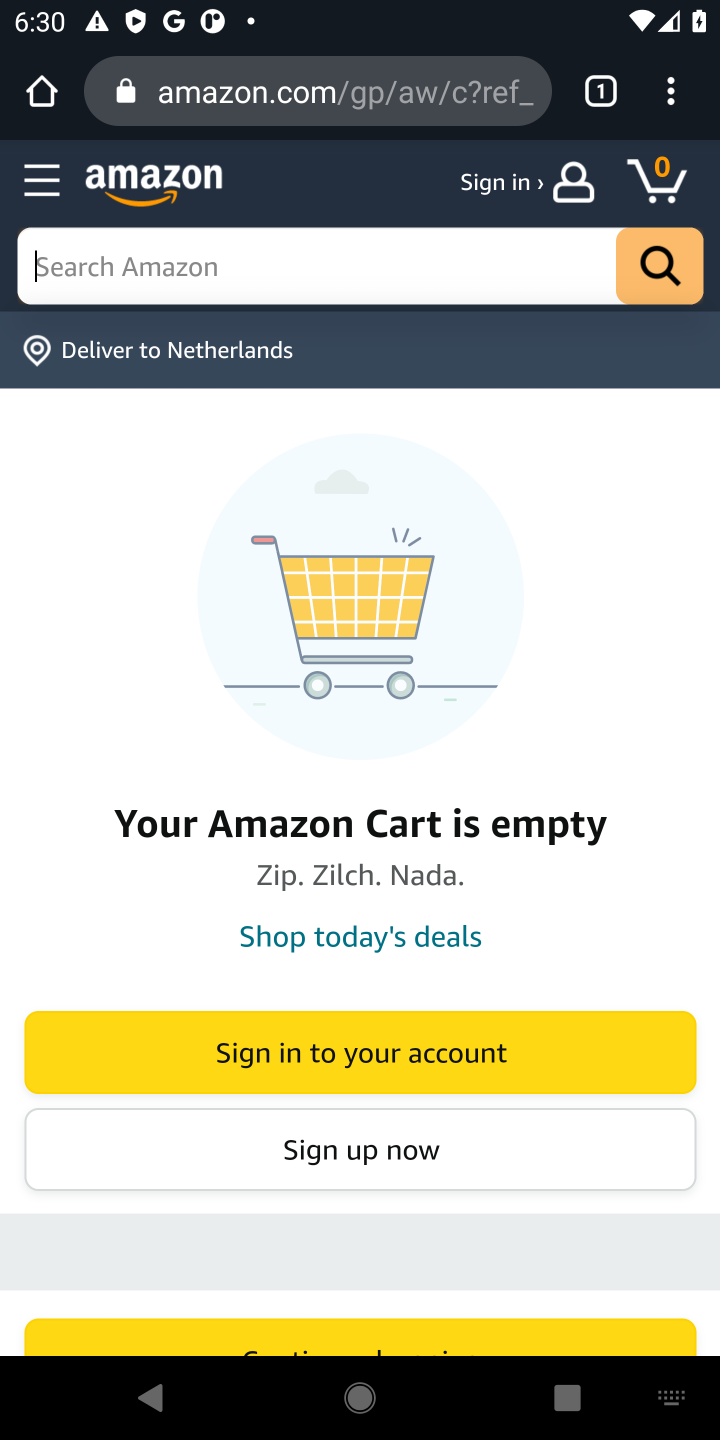
Step 29: type "panasonic triple a "
Your task to perform on an android device: Empty the shopping cart on amazon.com. Add panasonic triple a to the cart on amazon.com Image 30: 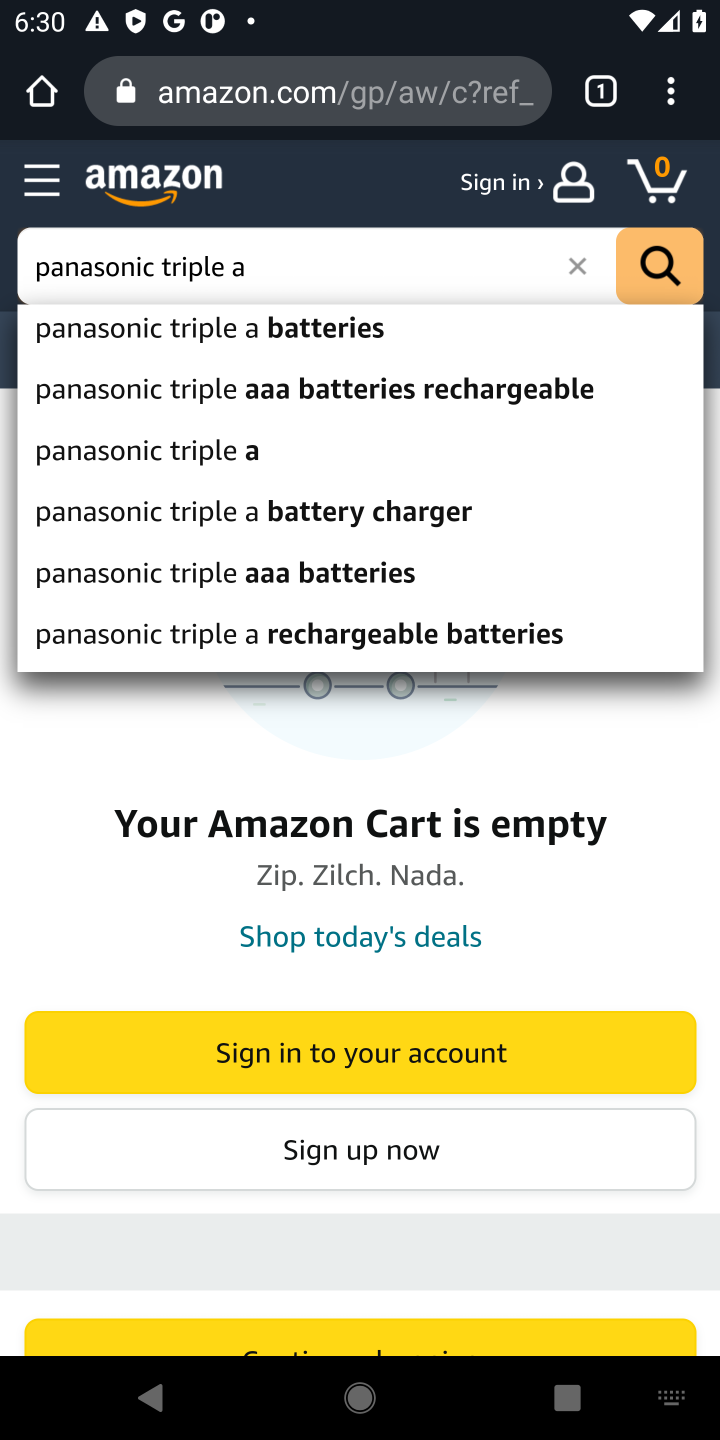
Step 30: click (668, 262)
Your task to perform on an android device: Empty the shopping cart on amazon.com. Add panasonic triple a to the cart on amazon.com Image 31: 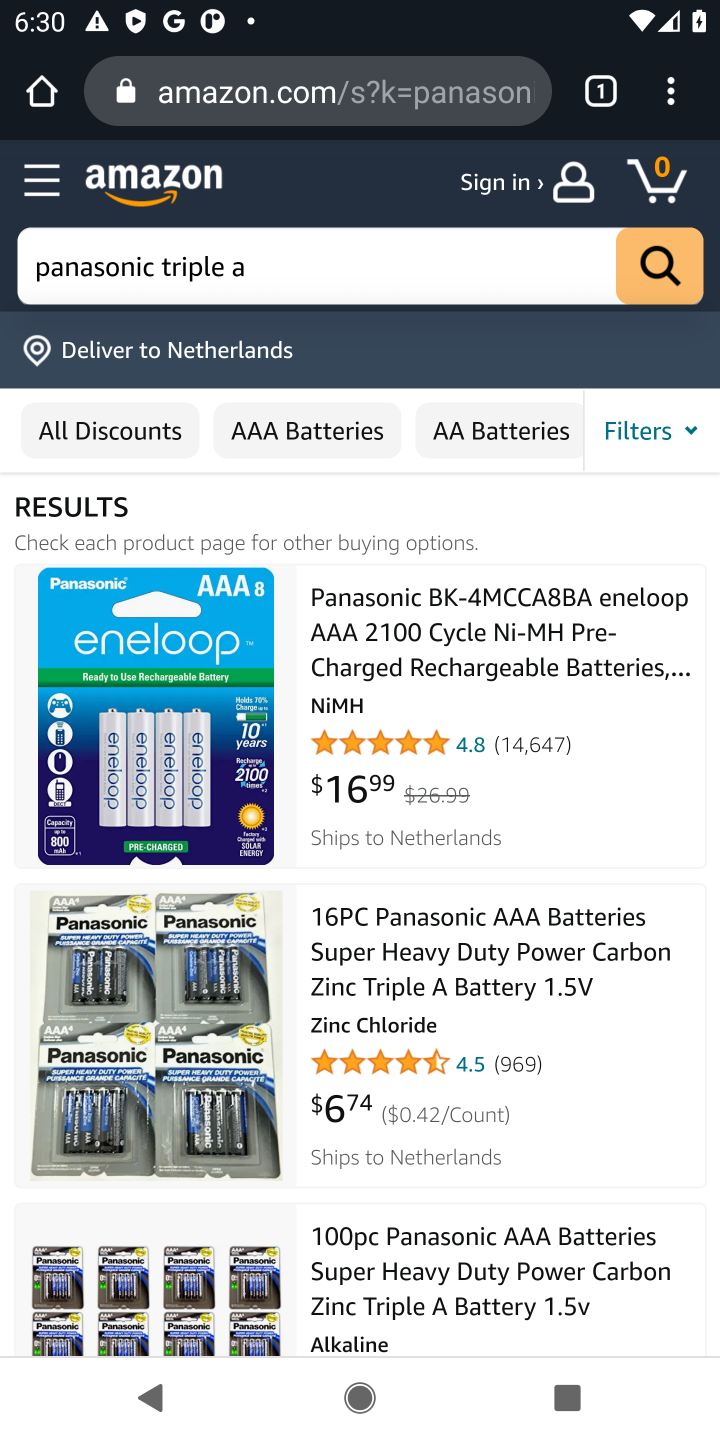
Step 31: click (480, 953)
Your task to perform on an android device: Empty the shopping cart on amazon.com. Add panasonic triple a to the cart on amazon.com Image 32: 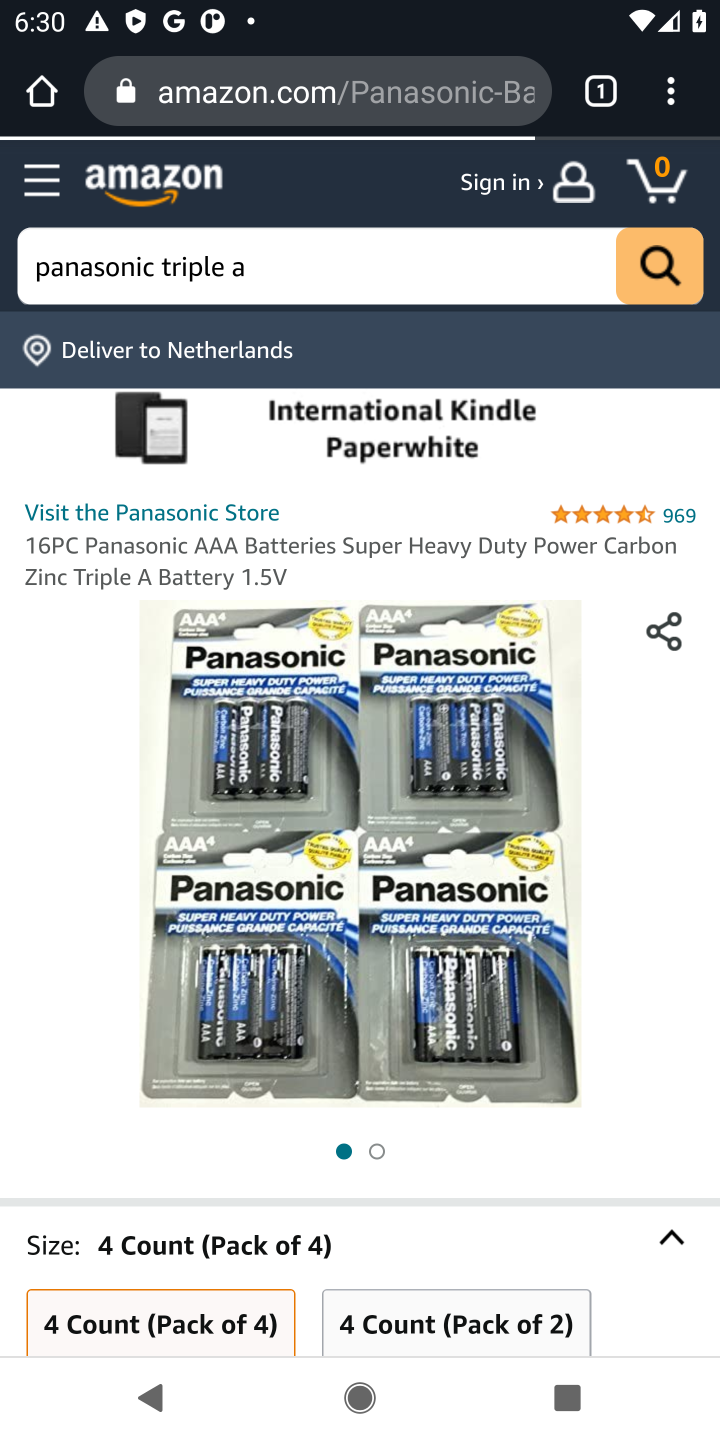
Step 32: drag from (421, 1249) to (445, 516)
Your task to perform on an android device: Empty the shopping cart on amazon.com. Add panasonic triple a to the cart on amazon.com Image 33: 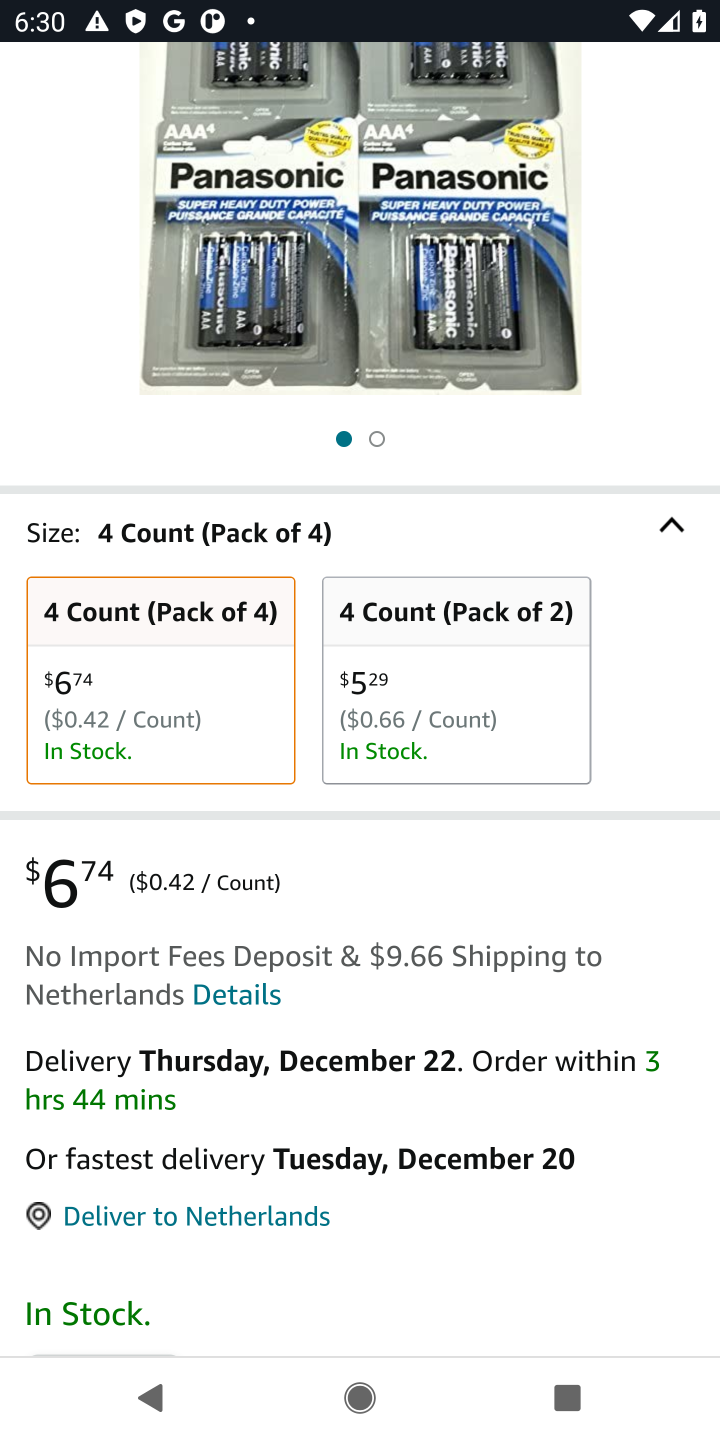
Step 33: drag from (389, 1281) to (404, 490)
Your task to perform on an android device: Empty the shopping cart on amazon.com. Add panasonic triple a to the cart on amazon.com Image 34: 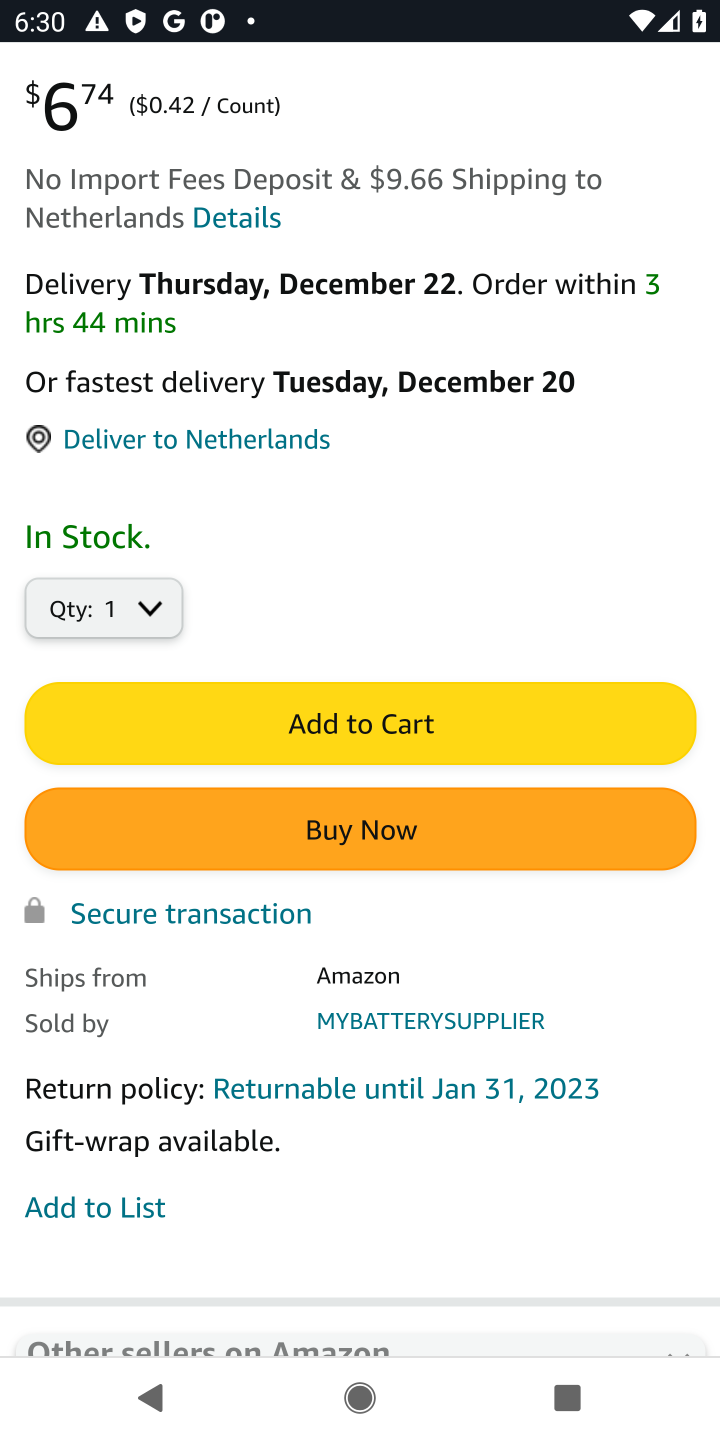
Step 34: click (430, 705)
Your task to perform on an android device: Empty the shopping cart on amazon.com. Add panasonic triple a to the cart on amazon.com Image 35: 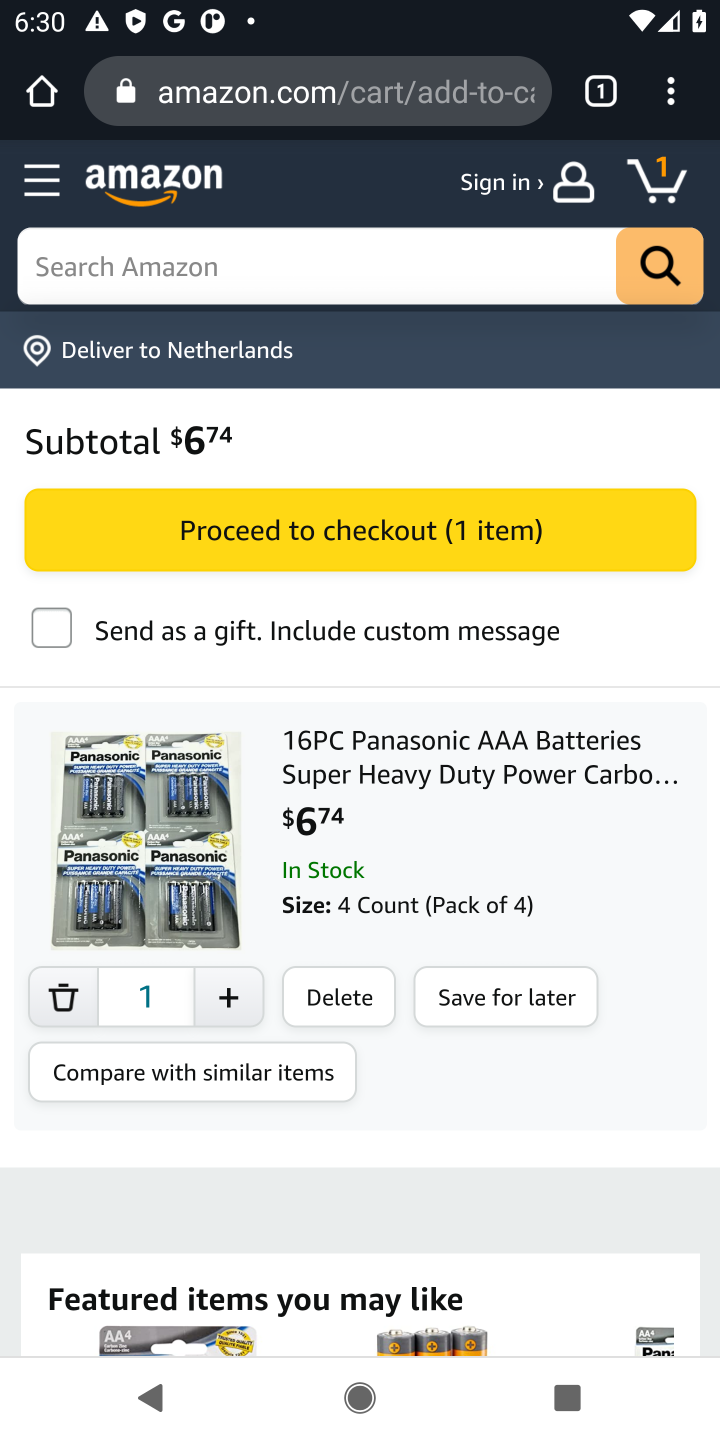
Step 35: task complete